Your task to perform on an android device: What time is it in New York? Image 0: 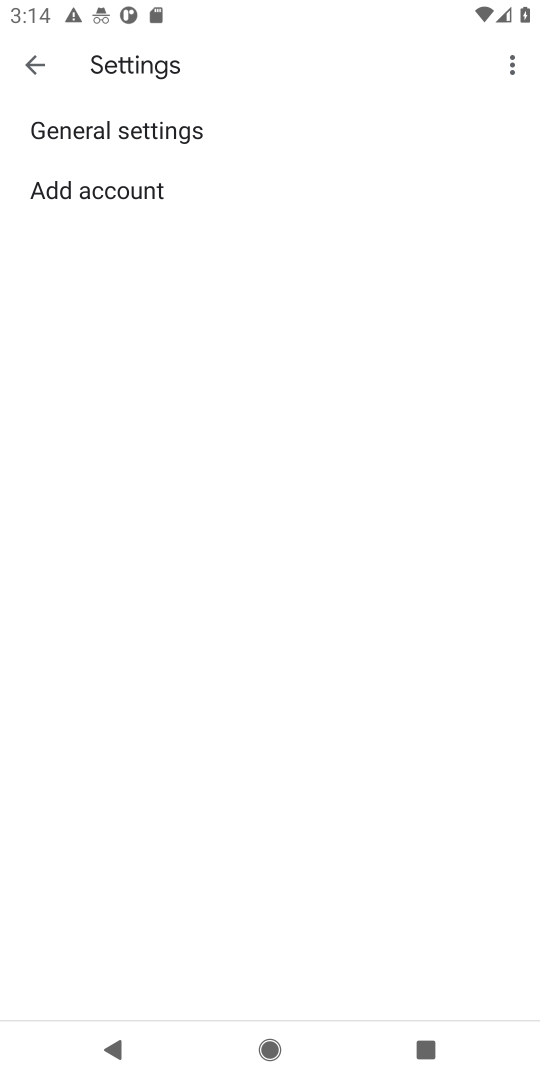
Step 0: click (19, 62)
Your task to perform on an android device: What time is it in New York? Image 1: 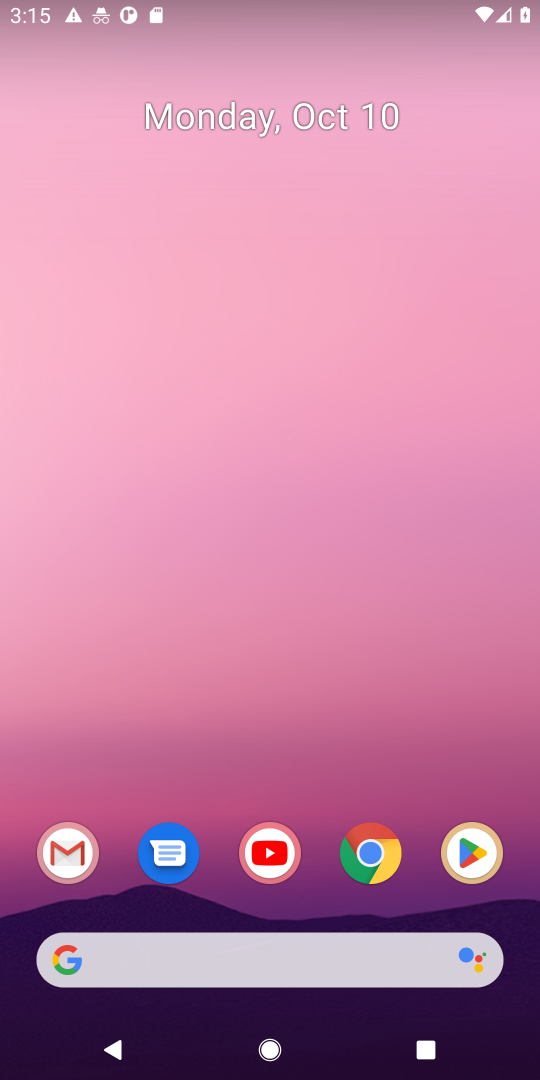
Step 1: click (360, 962)
Your task to perform on an android device: What time is it in New York? Image 2: 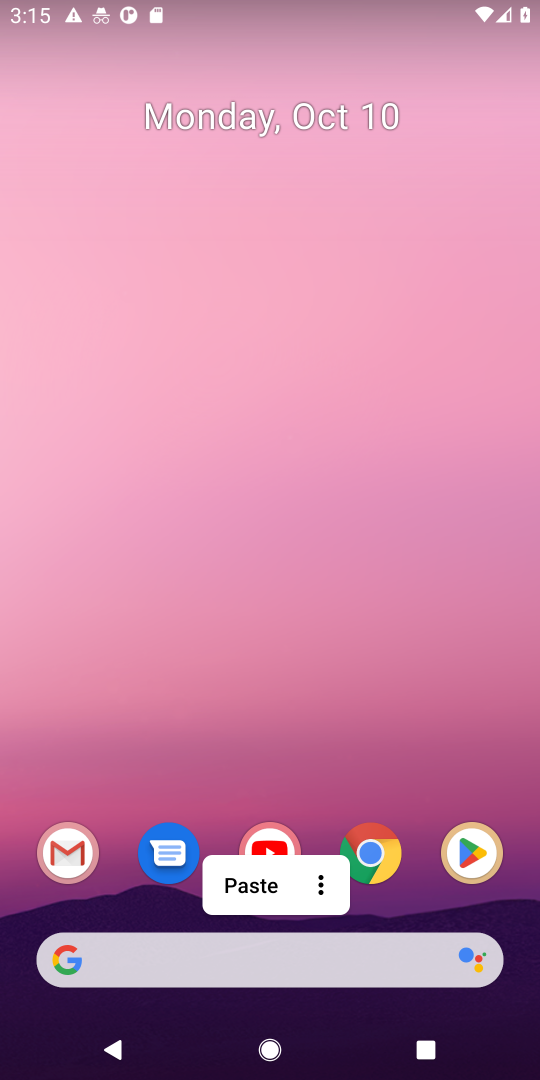
Step 2: click (212, 963)
Your task to perform on an android device: What time is it in New York? Image 3: 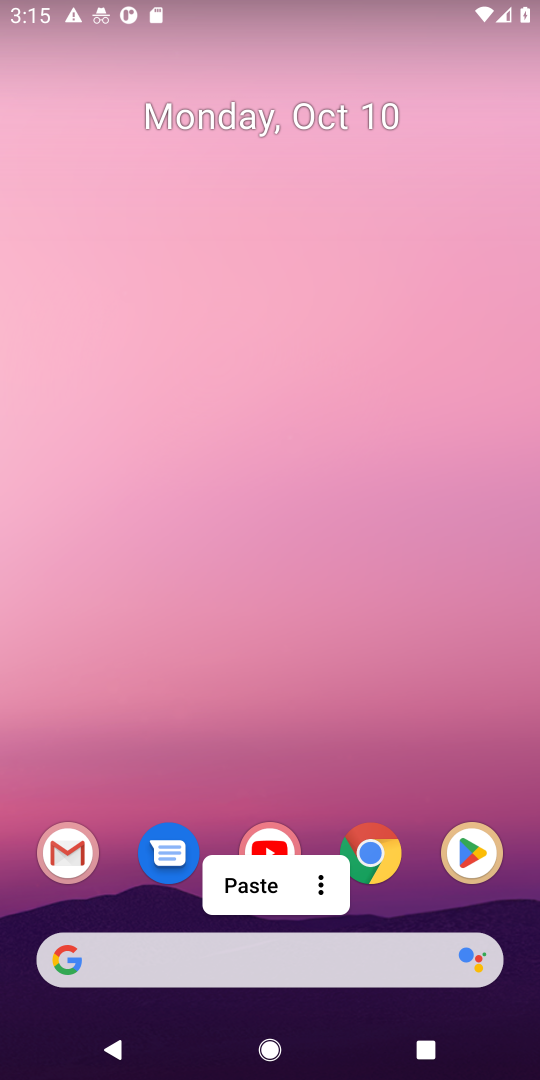
Step 3: click (211, 948)
Your task to perform on an android device: What time is it in New York? Image 4: 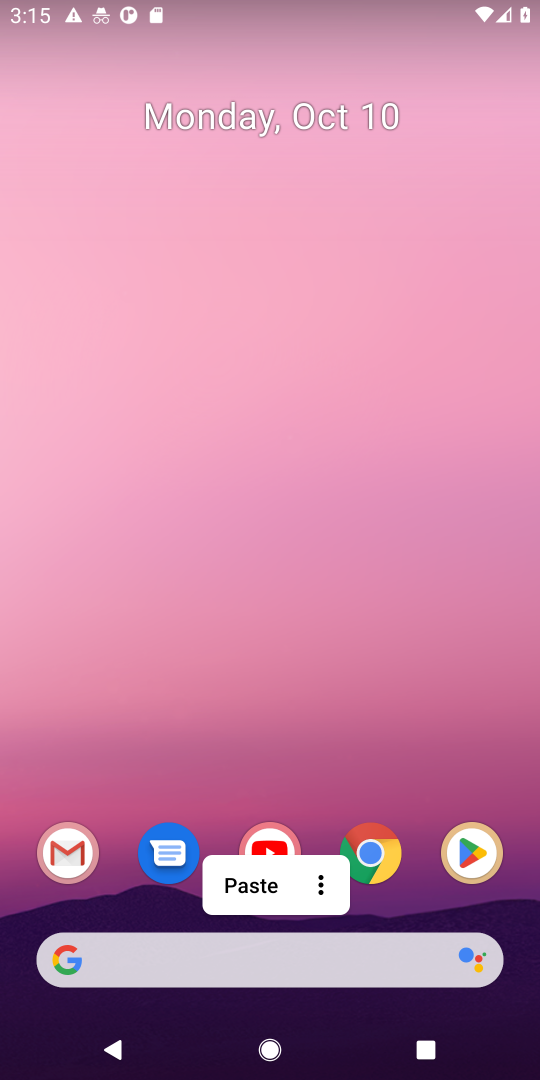
Step 4: click (387, 803)
Your task to perform on an android device: What time is it in New York? Image 5: 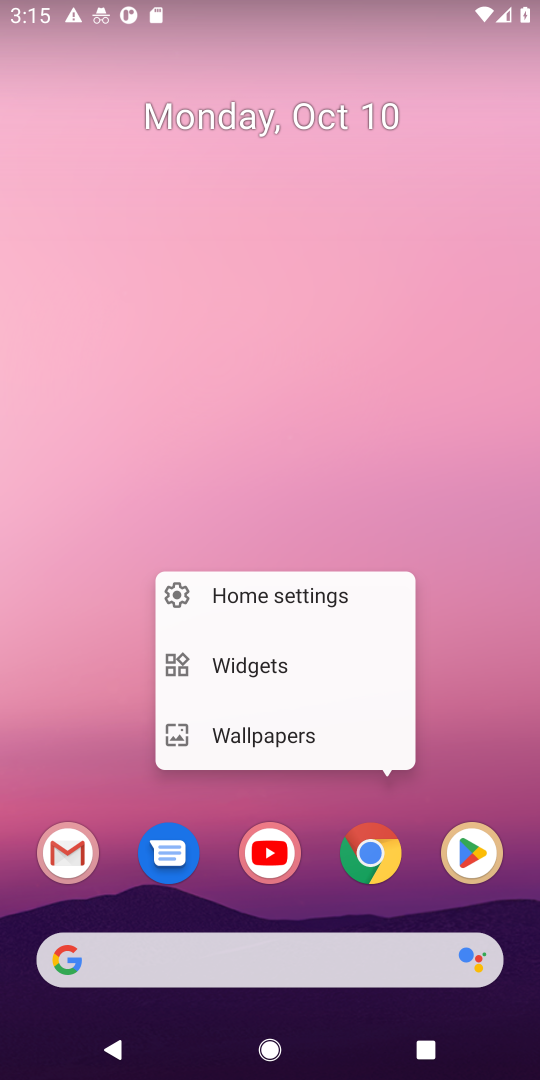
Step 5: click (377, 840)
Your task to perform on an android device: What time is it in New York? Image 6: 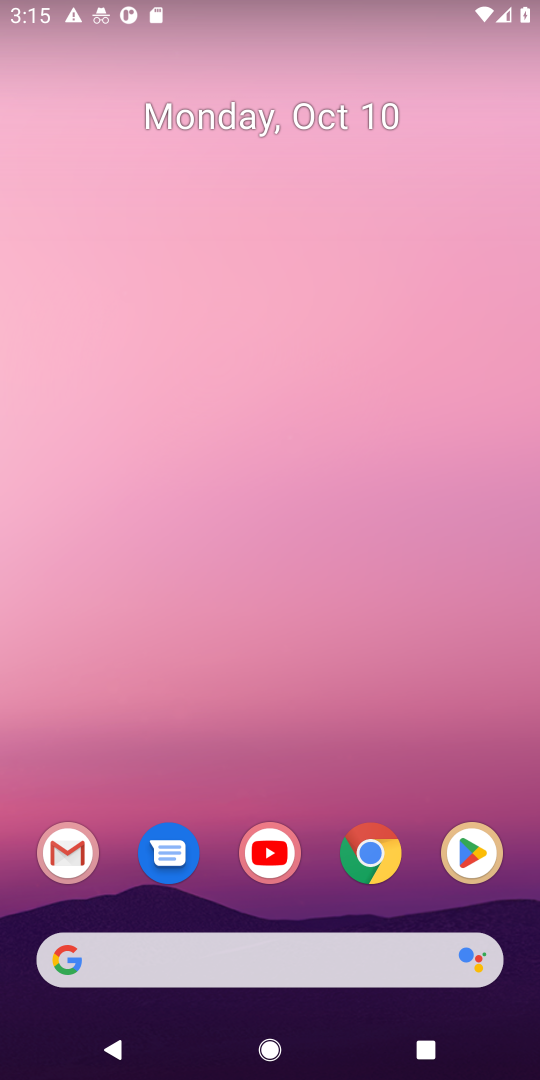
Step 6: click (376, 880)
Your task to perform on an android device: What time is it in New York? Image 7: 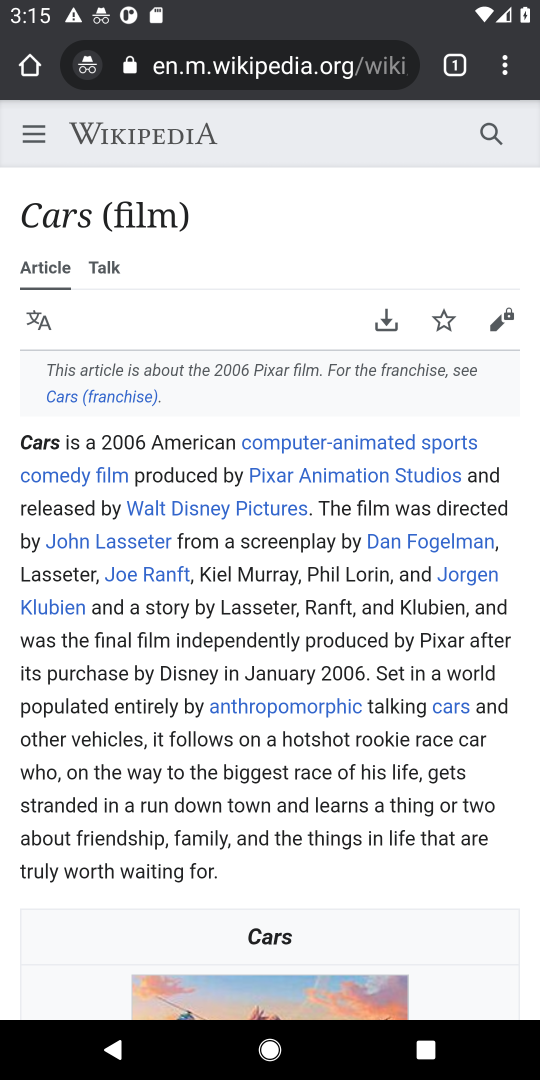
Step 7: click (219, 77)
Your task to perform on an android device: What time is it in New York? Image 8: 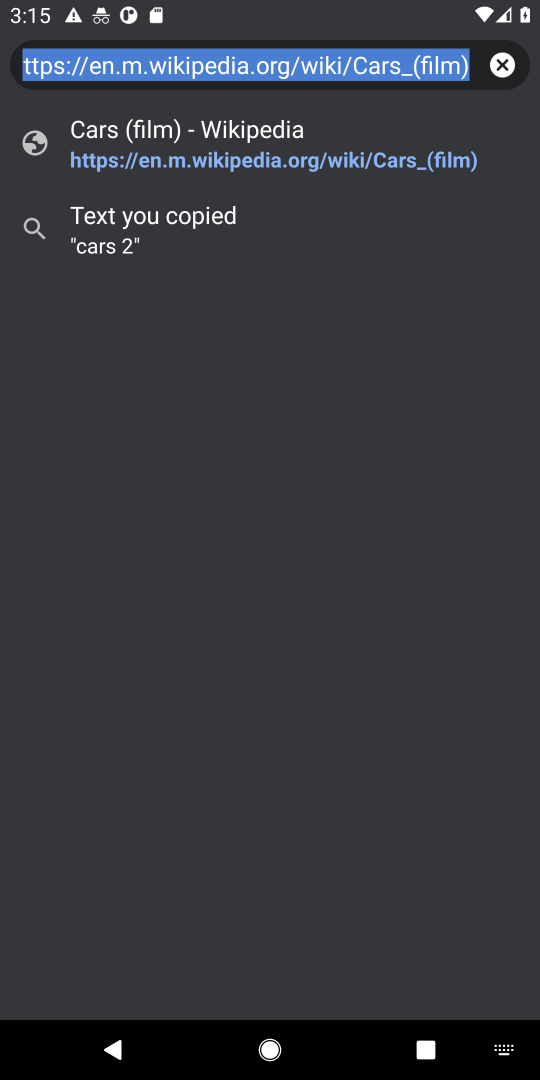
Step 8: type "What time is it in New York?"
Your task to perform on an android device: What time is it in New York? Image 9: 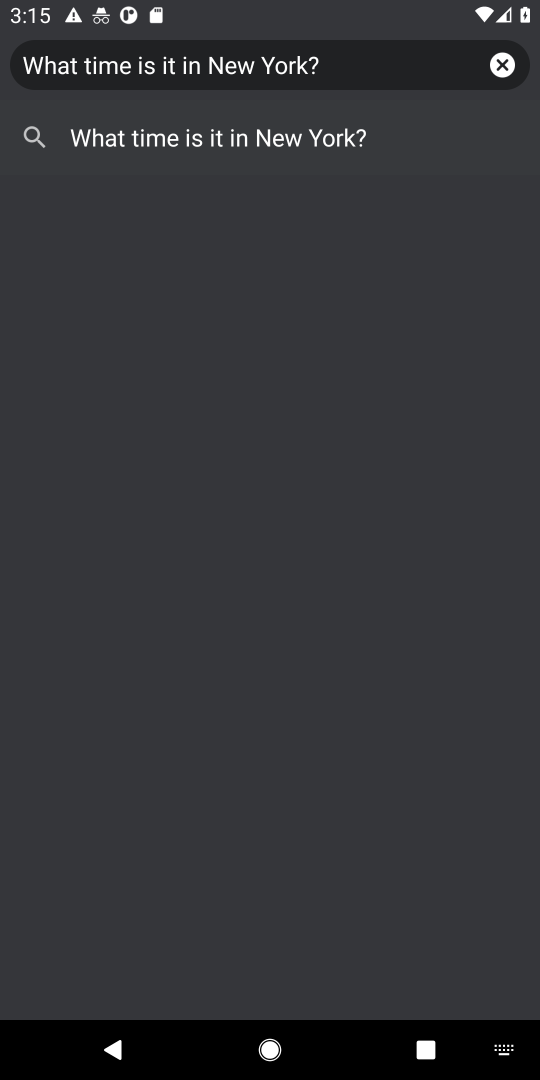
Step 9: type ""
Your task to perform on an android device: What time is it in New York? Image 10: 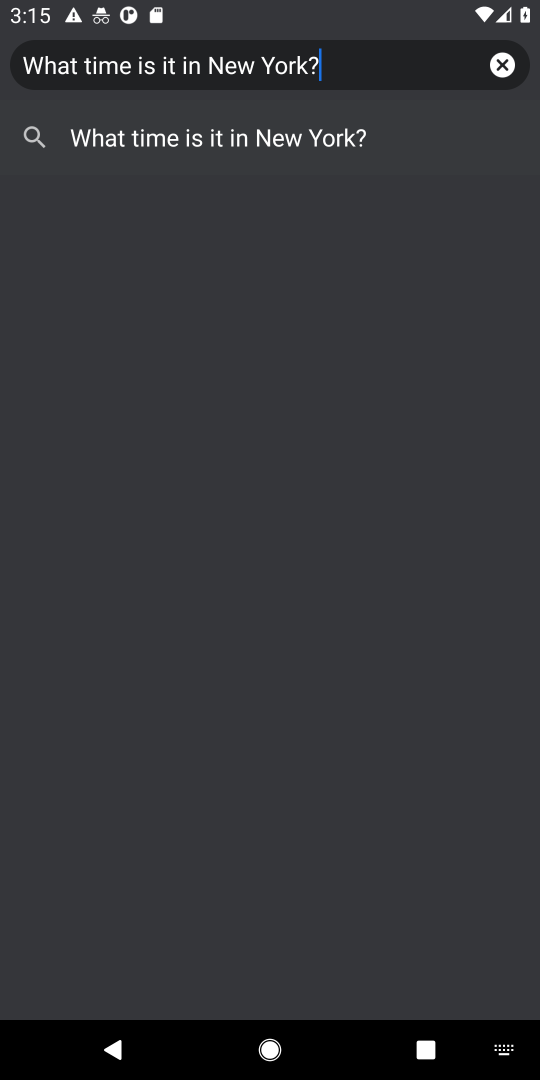
Step 10: click (350, 145)
Your task to perform on an android device: What time is it in New York? Image 11: 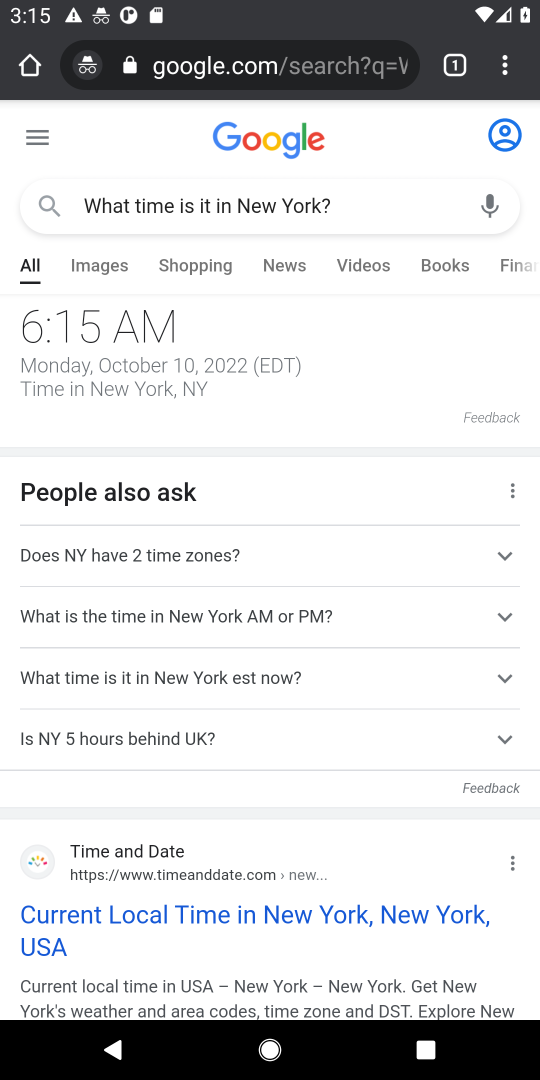
Step 11: drag from (374, 672) to (396, 222)
Your task to perform on an android device: What time is it in New York? Image 12: 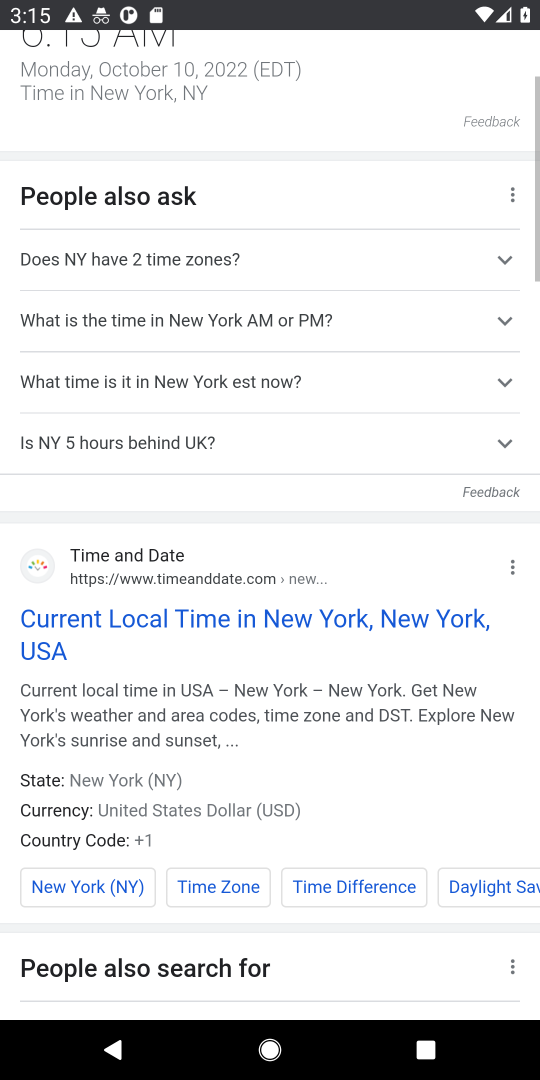
Step 12: click (349, 293)
Your task to perform on an android device: What time is it in New York? Image 13: 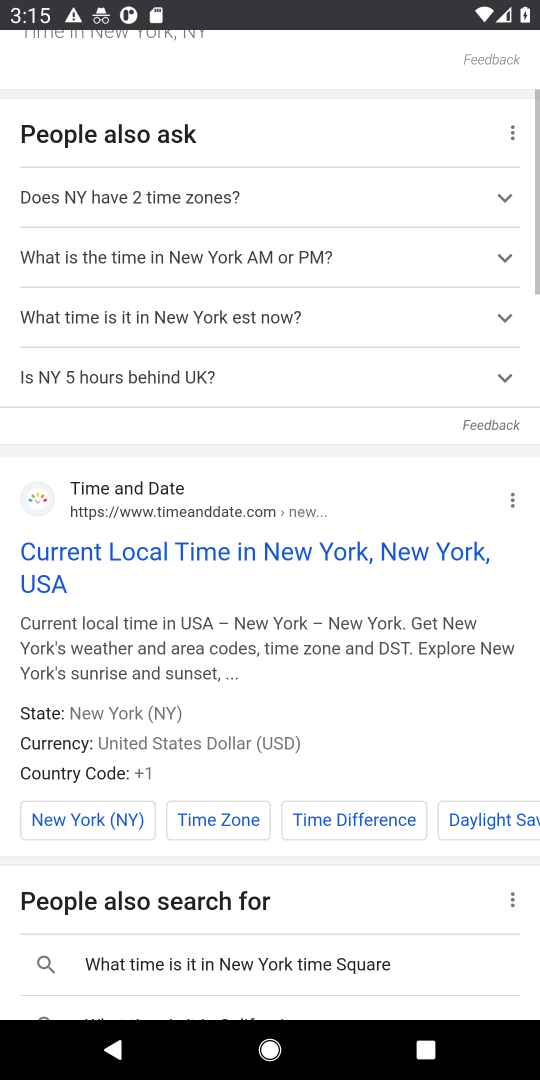
Step 13: drag from (336, 625) to (361, 347)
Your task to perform on an android device: What time is it in New York? Image 14: 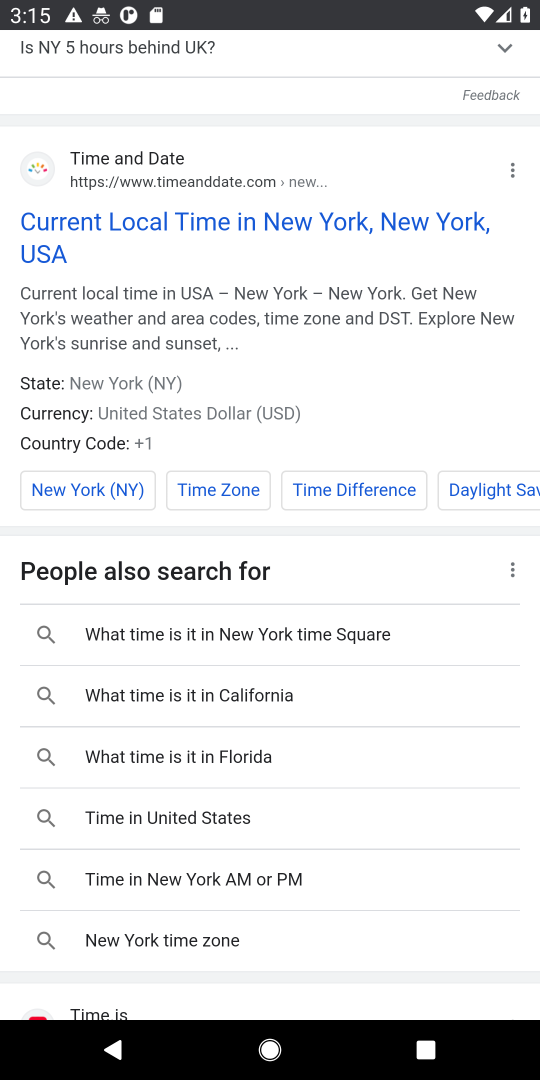
Step 14: drag from (354, 368) to (370, 226)
Your task to perform on an android device: What time is it in New York? Image 15: 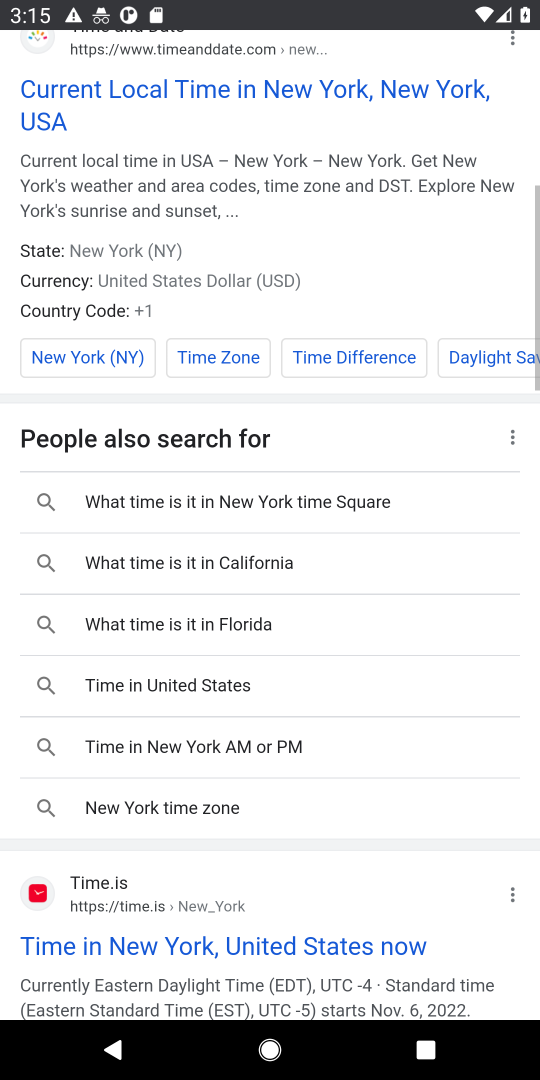
Step 15: drag from (340, 614) to (356, 234)
Your task to perform on an android device: What time is it in New York? Image 16: 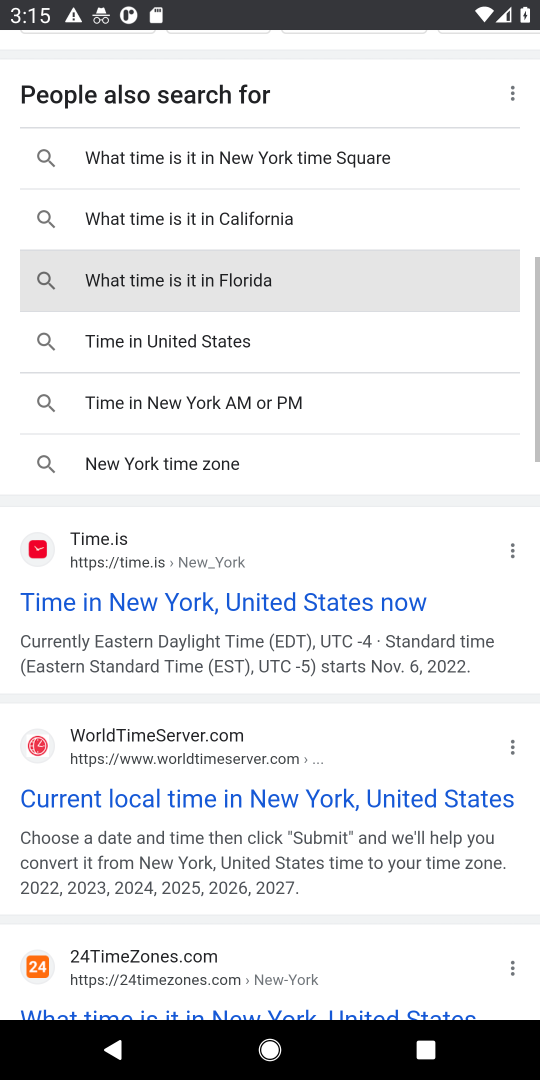
Step 16: drag from (309, 566) to (294, 289)
Your task to perform on an android device: What time is it in New York? Image 17: 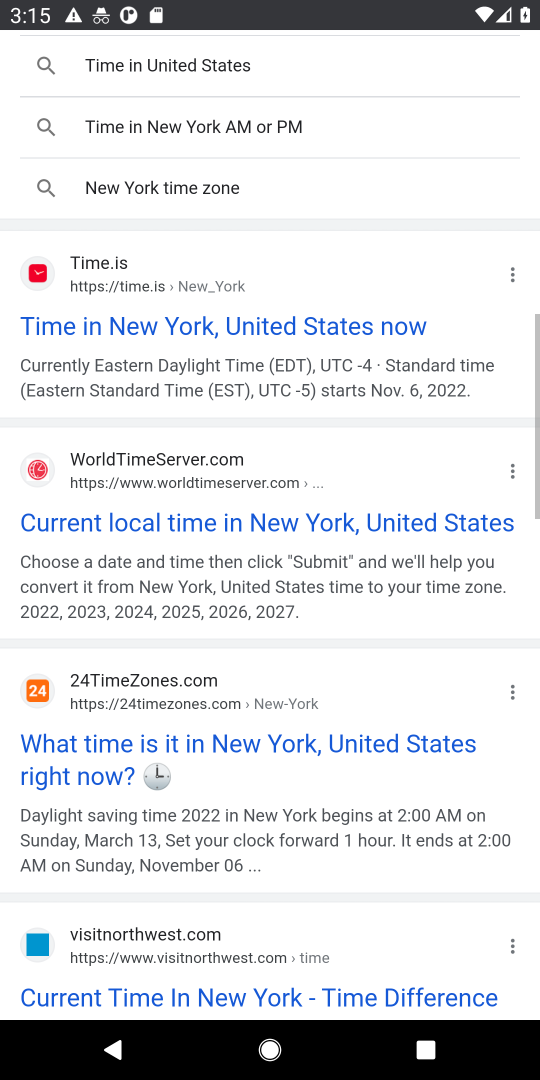
Step 17: drag from (281, 499) to (336, 226)
Your task to perform on an android device: What time is it in New York? Image 18: 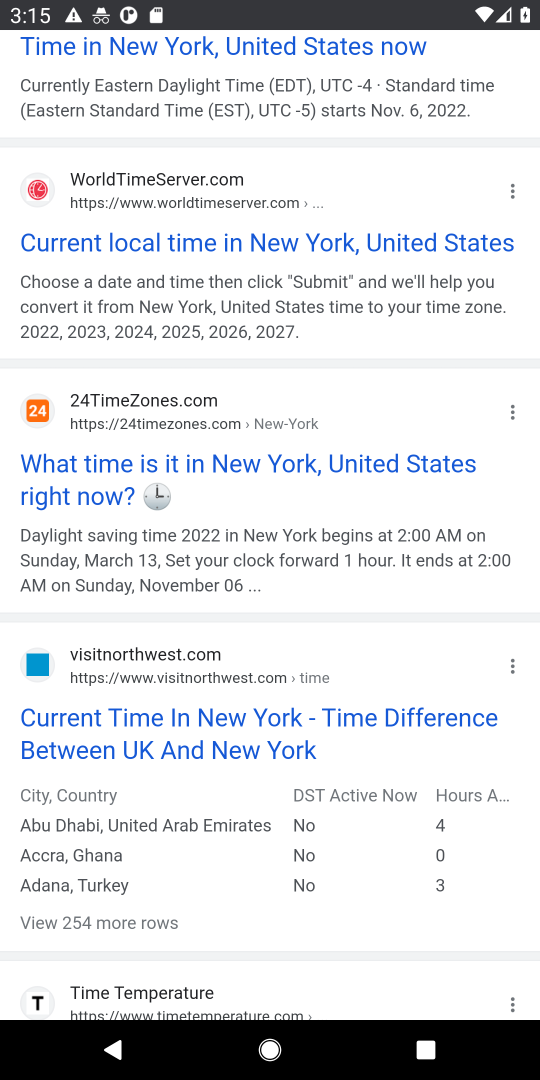
Step 18: click (154, 57)
Your task to perform on an android device: What time is it in New York? Image 19: 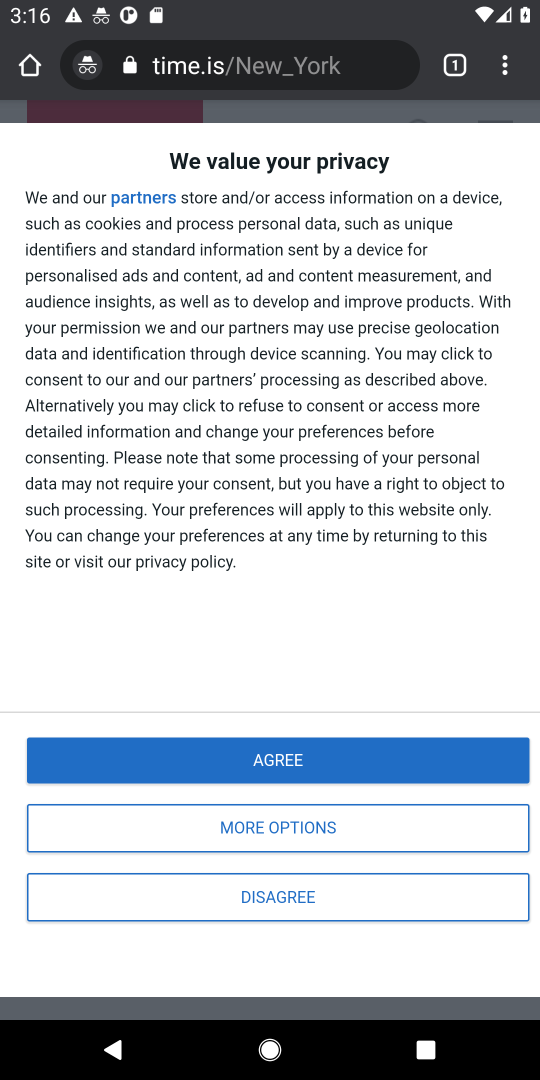
Step 19: click (238, 884)
Your task to perform on an android device: What time is it in New York? Image 20: 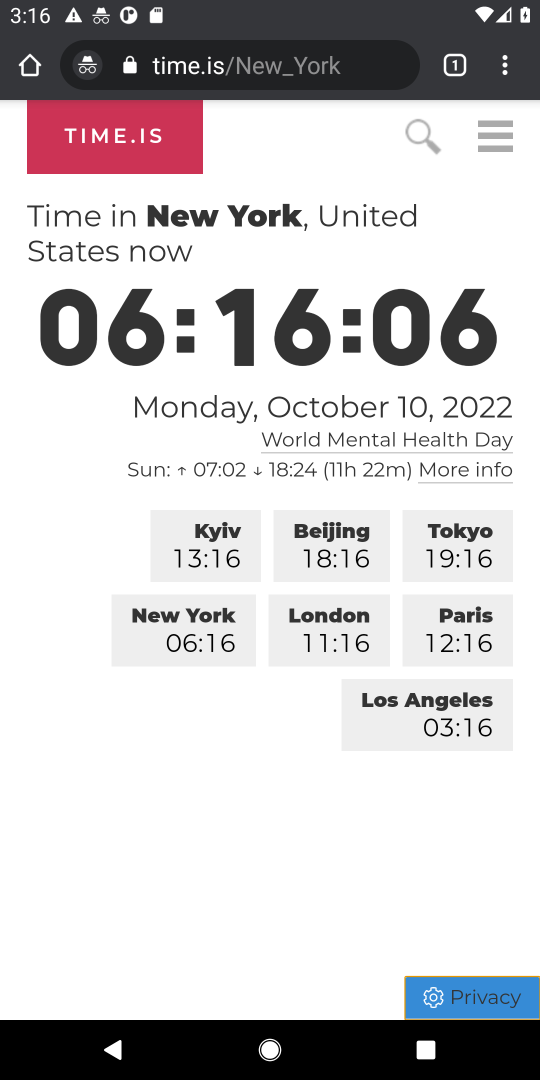
Step 20: drag from (256, 897) to (260, 305)
Your task to perform on an android device: What time is it in New York? Image 21: 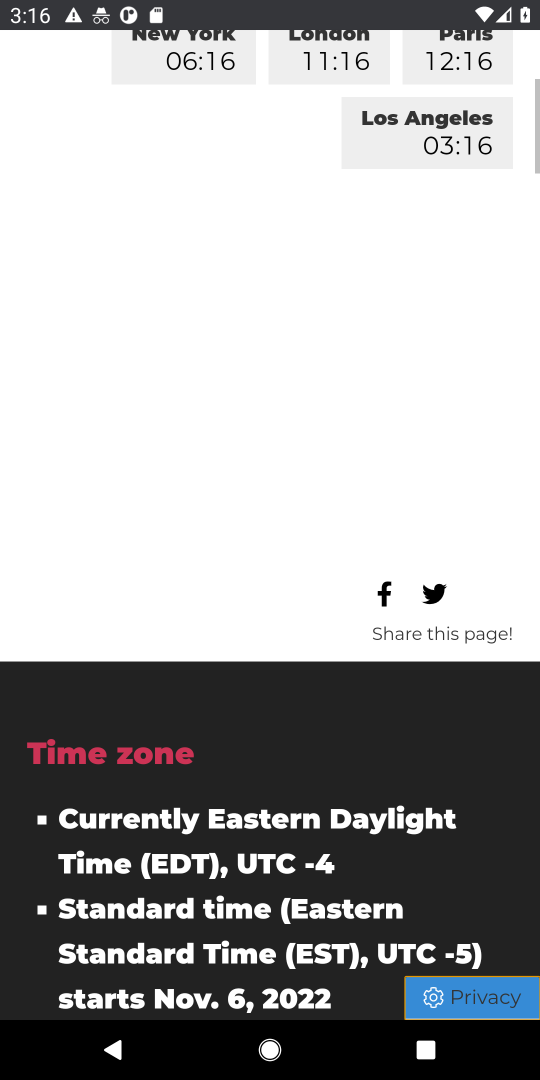
Step 21: drag from (256, 932) to (280, 328)
Your task to perform on an android device: What time is it in New York? Image 22: 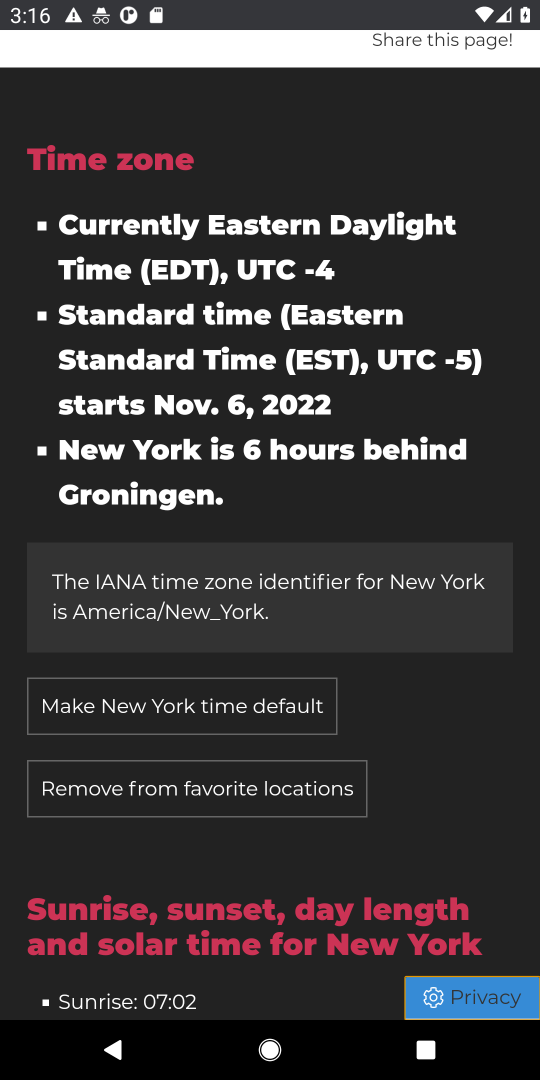
Step 22: drag from (228, 762) to (255, 657)
Your task to perform on an android device: What time is it in New York? Image 23: 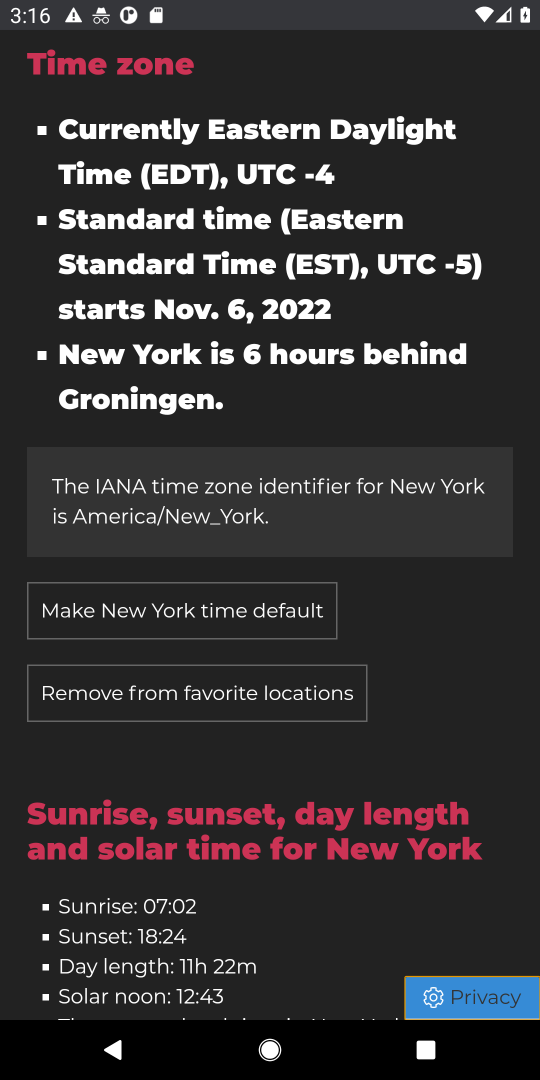
Step 23: drag from (244, 702) to (275, 272)
Your task to perform on an android device: What time is it in New York? Image 24: 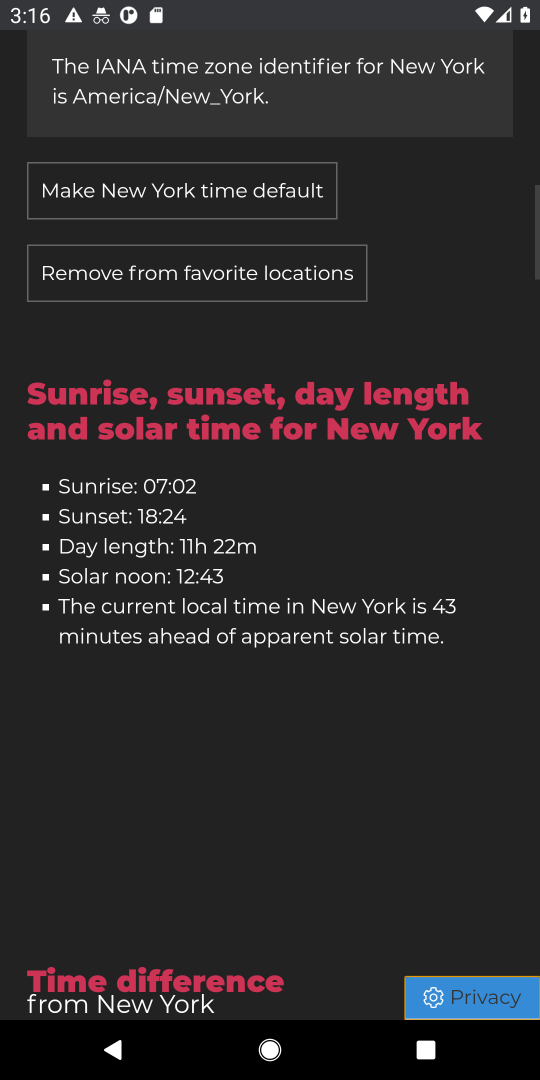
Step 24: drag from (216, 745) to (276, 346)
Your task to perform on an android device: What time is it in New York? Image 25: 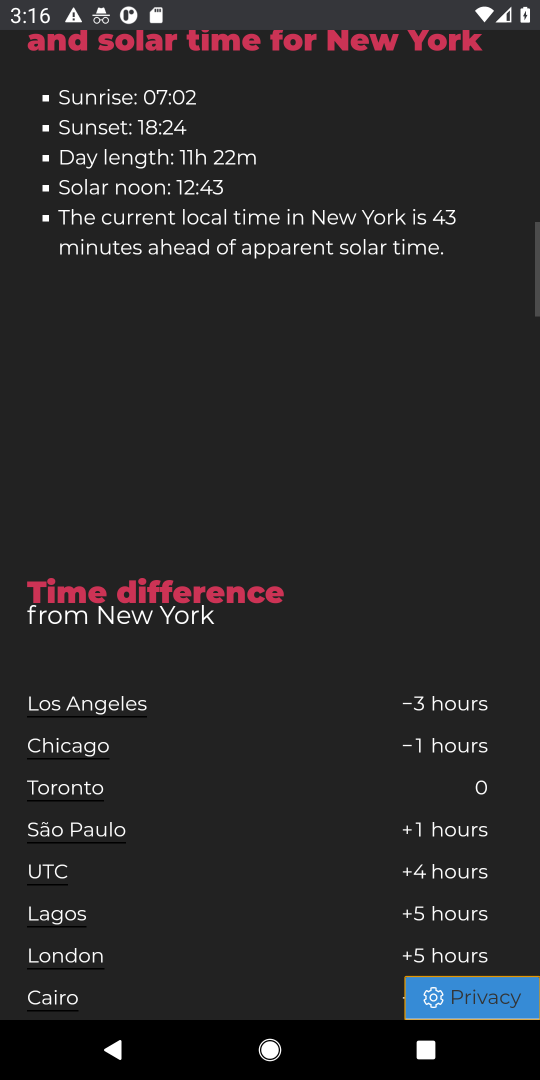
Step 25: drag from (262, 695) to (297, 300)
Your task to perform on an android device: What time is it in New York? Image 26: 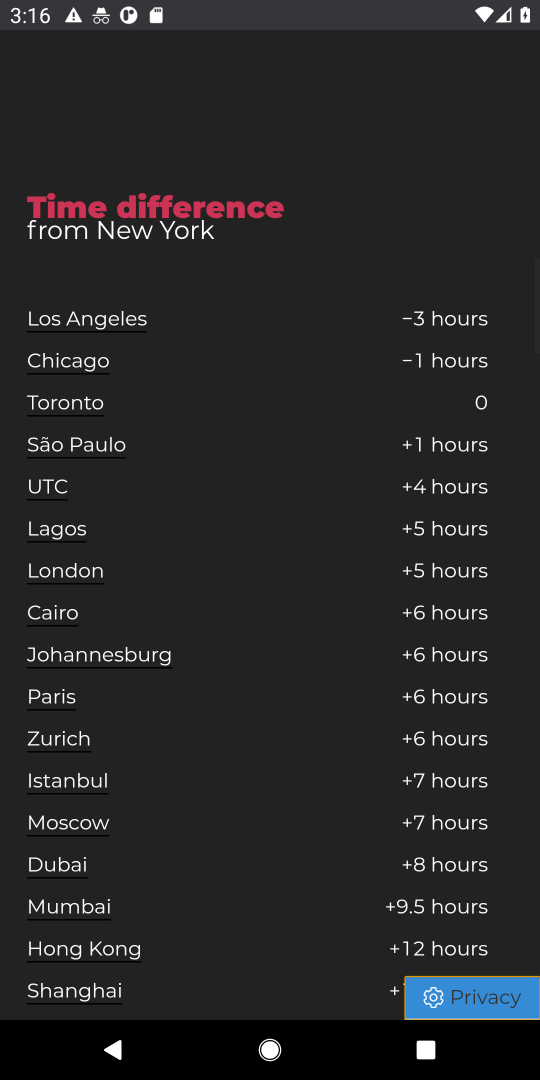
Step 26: press back button
Your task to perform on an android device: What time is it in New York? Image 27: 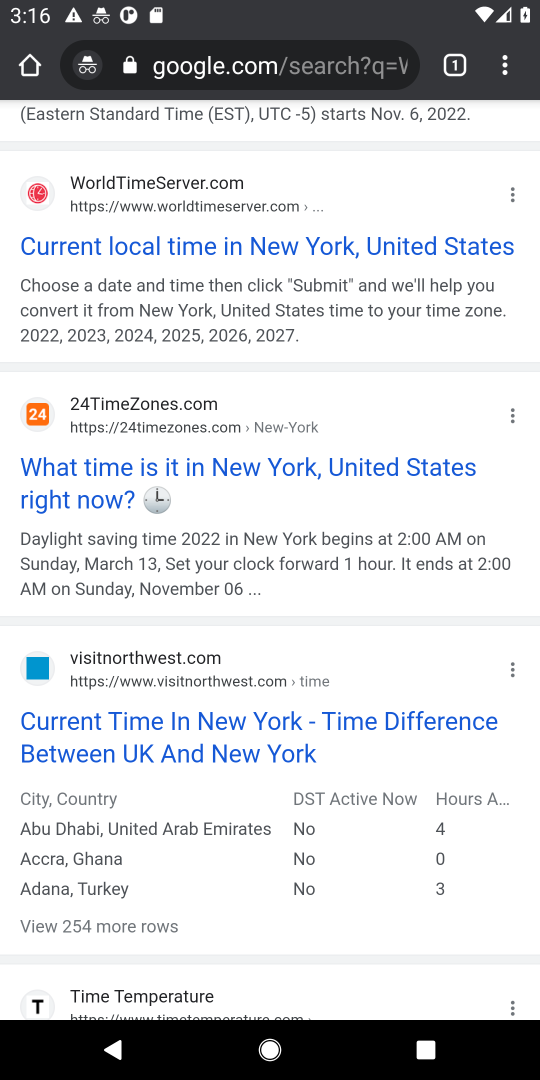
Step 27: click (96, 482)
Your task to perform on an android device: What time is it in New York? Image 28: 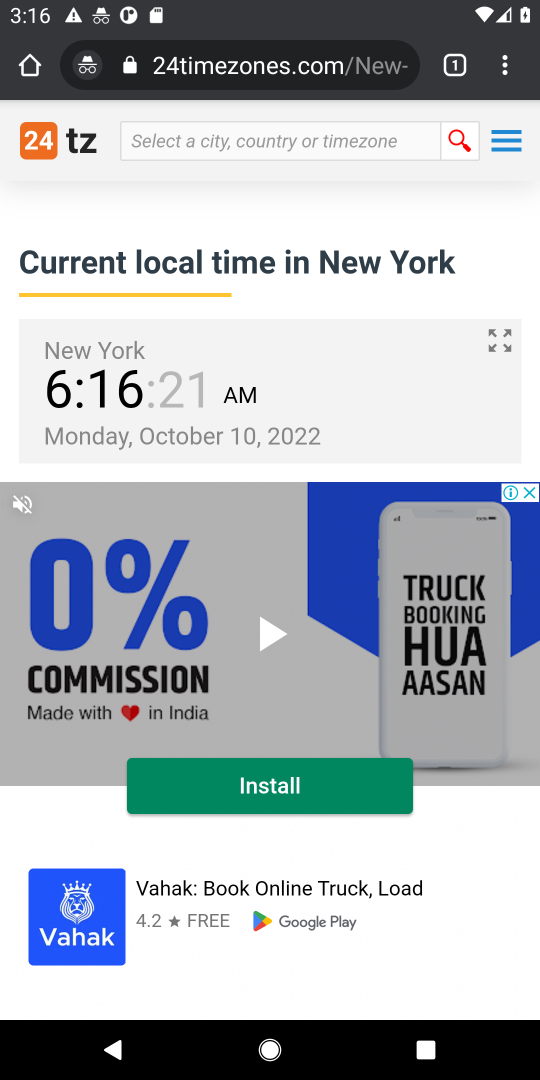
Step 28: drag from (161, 767) to (258, 251)
Your task to perform on an android device: What time is it in New York? Image 29: 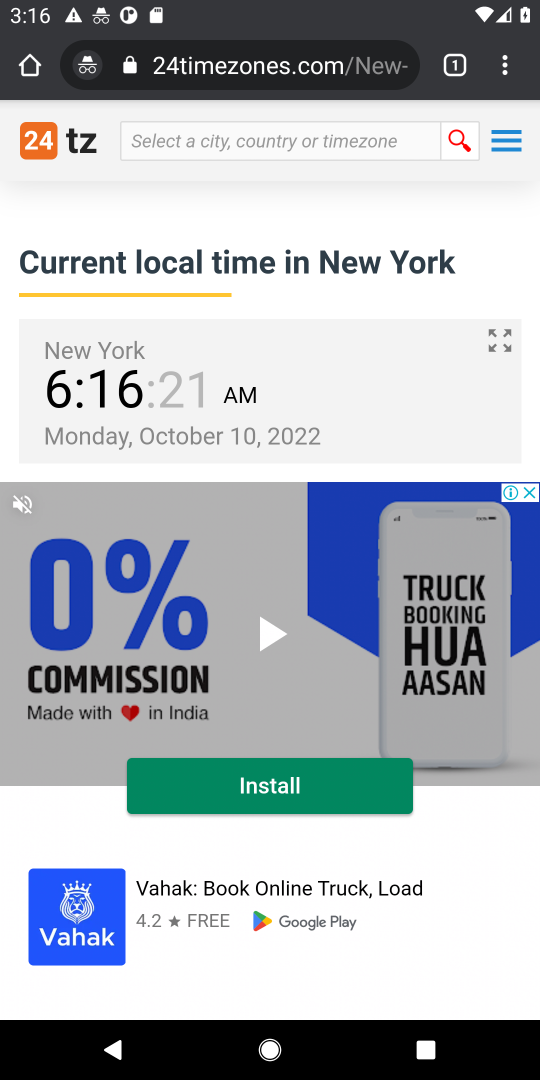
Step 29: drag from (365, 497) to (402, 235)
Your task to perform on an android device: What time is it in New York? Image 30: 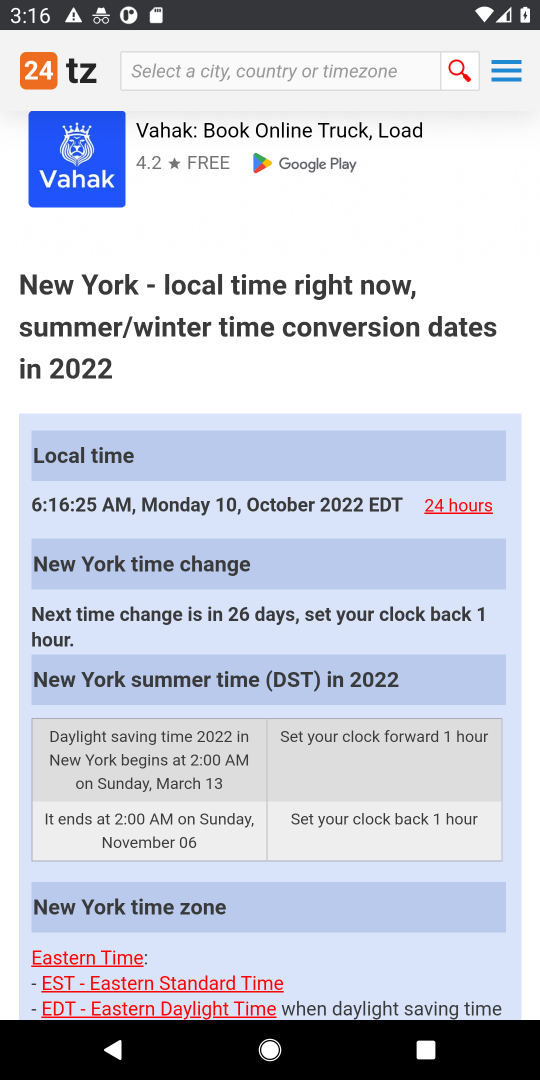
Step 30: press back button
Your task to perform on an android device: What time is it in New York? Image 31: 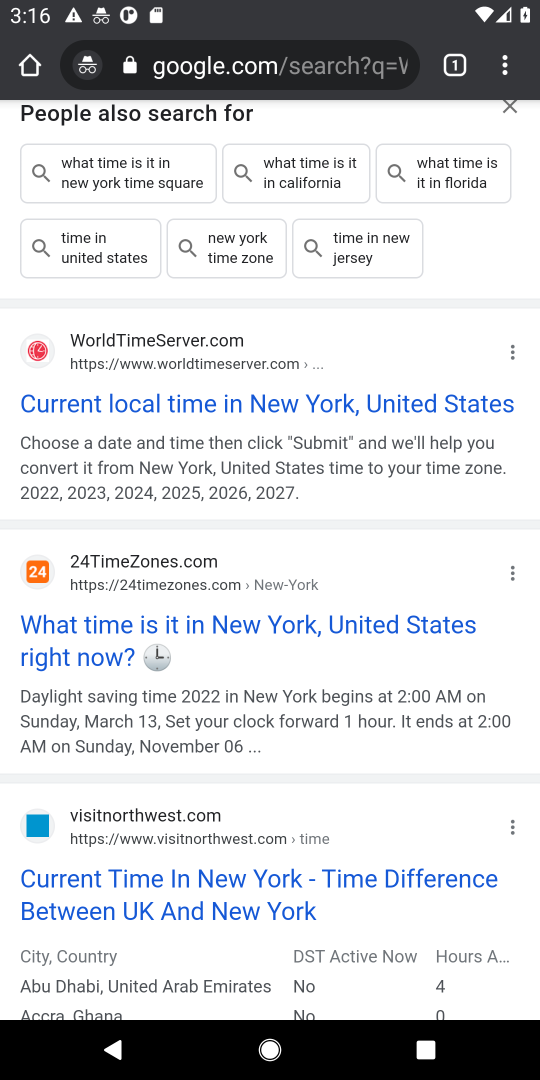
Step 31: click (169, 868)
Your task to perform on an android device: What time is it in New York? Image 32: 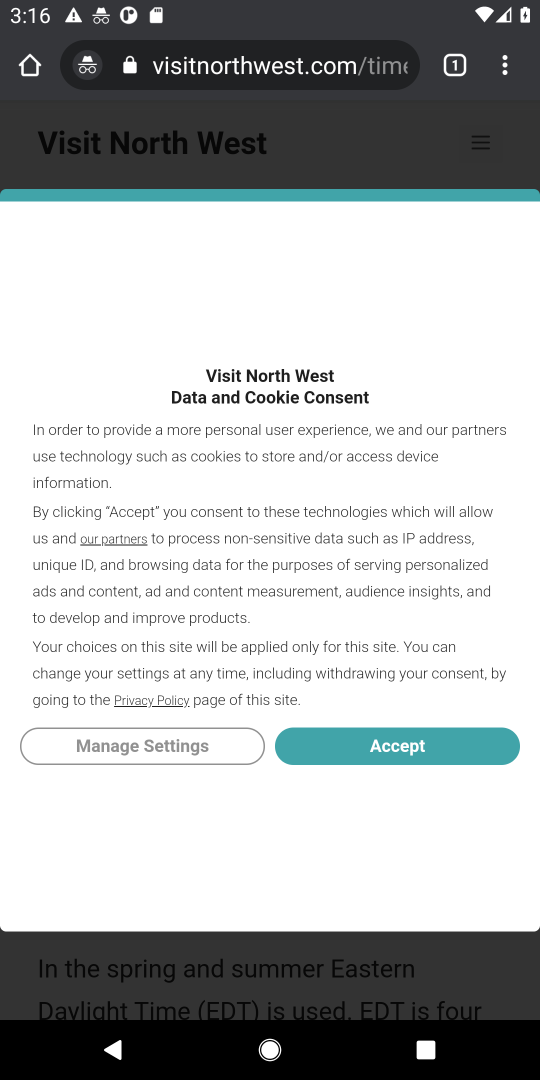
Step 32: click (311, 742)
Your task to perform on an android device: What time is it in New York? Image 33: 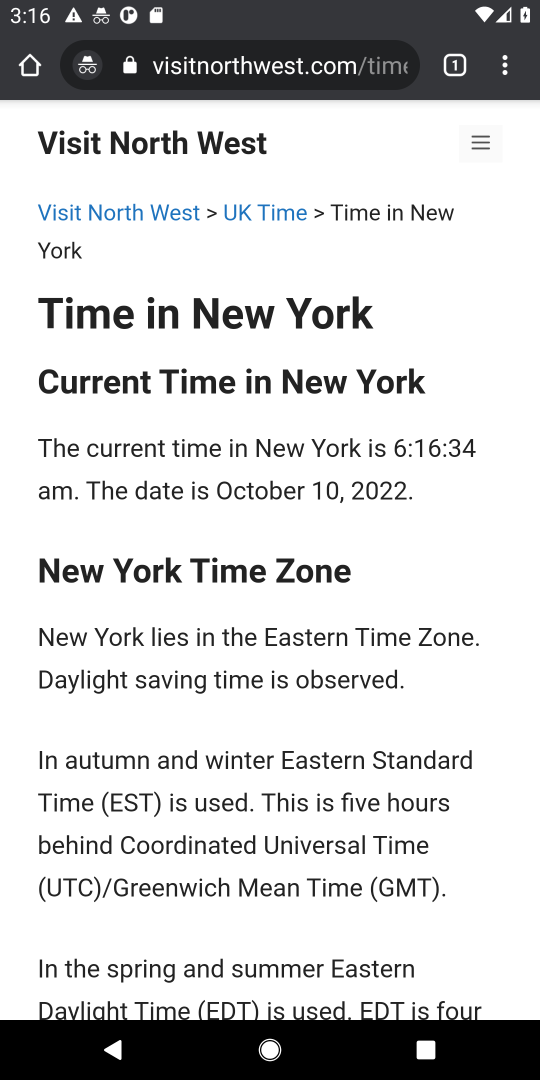
Step 33: drag from (331, 859) to (333, 319)
Your task to perform on an android device: What time is it in New York? Image 34: 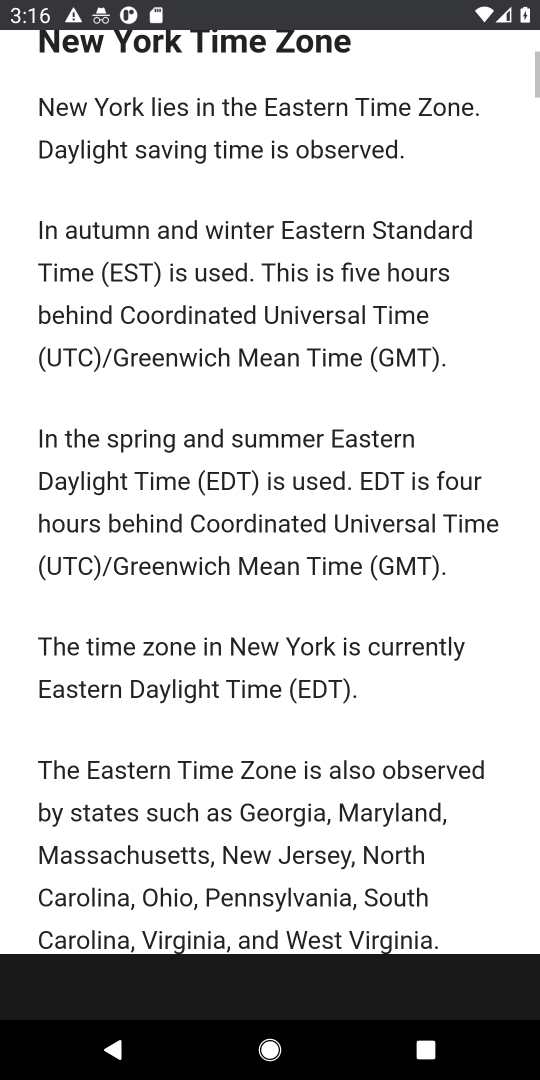
Step 34: drag from (336, 775) to (344, 224)
Your task to perform on an android device: What time is it in New York? Image 35: 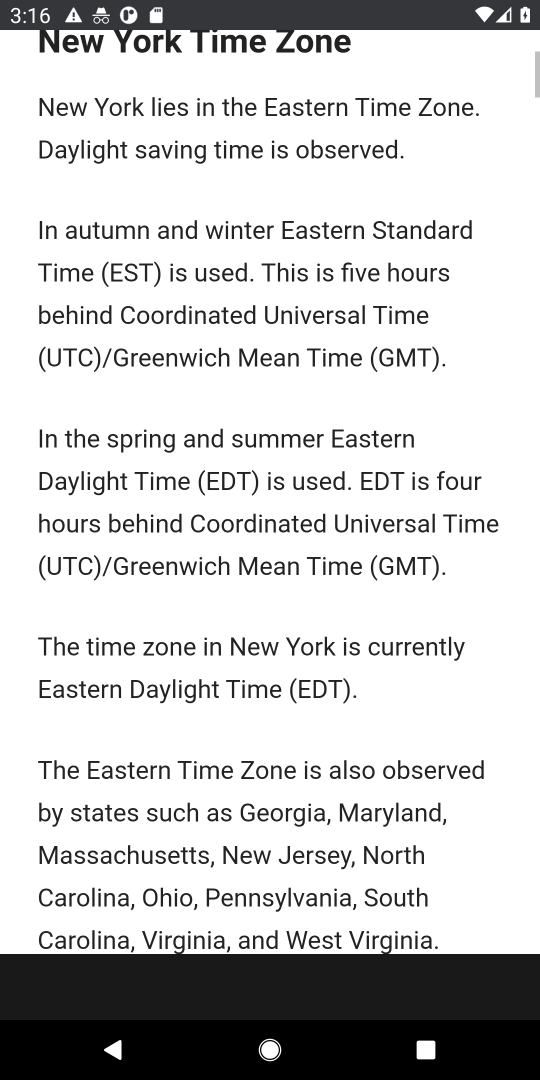
Step 35: drag from (311, 678) to (327, 241)
Your task to perform on an android device: What time is it in New York? Image 36: 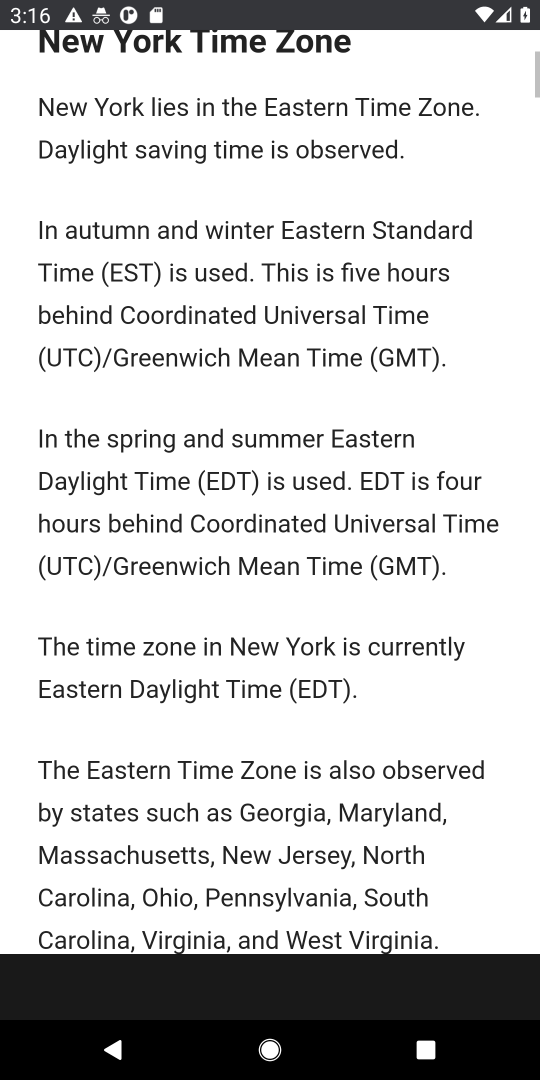
Step 36: drag from (250, 707) to (237, 238)
Your task to perform on an android device: What time is it in New York? Image 37: 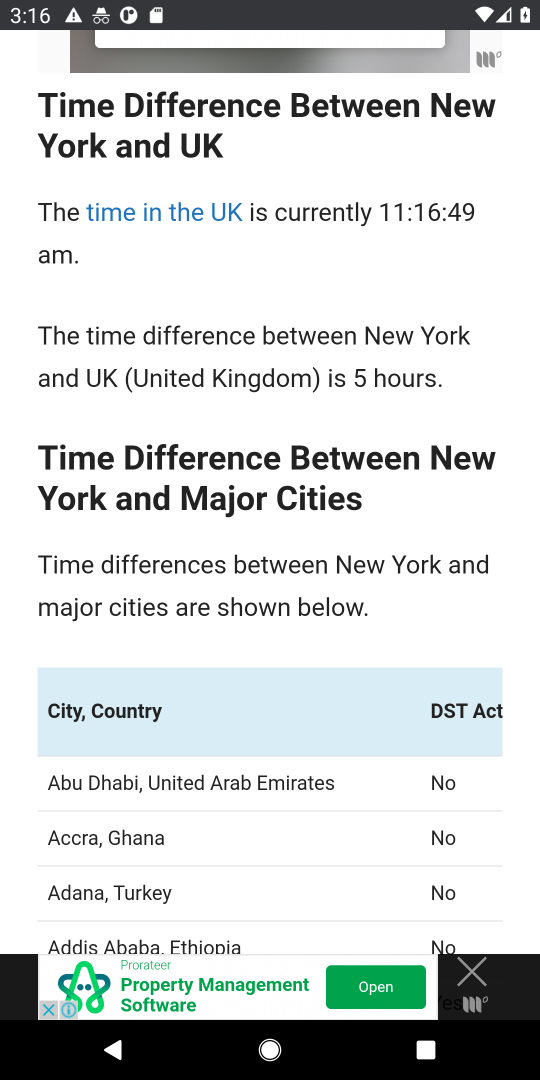
Step 37: drag from (292, 662) to (276, 171)
Your task to perform on an android device: What time is it in New York? Image 38: 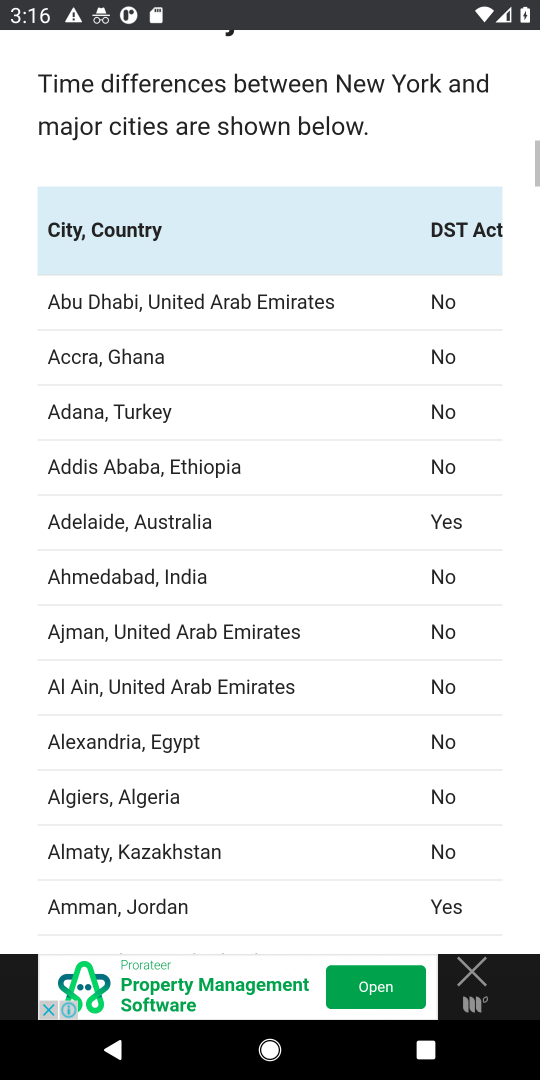
Step 38: drag from (241, 603) to (336, 47)
Your task to perform on an android device: What time is it in New York? Image 39: 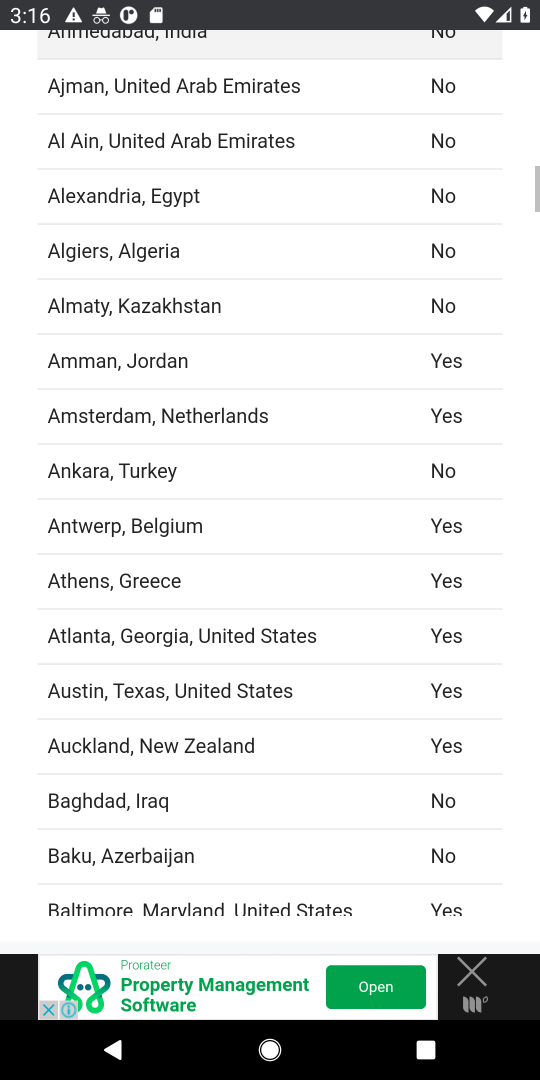
Step 39: drag from (310, 586) to (277, 129)
Your task to perform on an android device: What time is it in New York? Image 40: 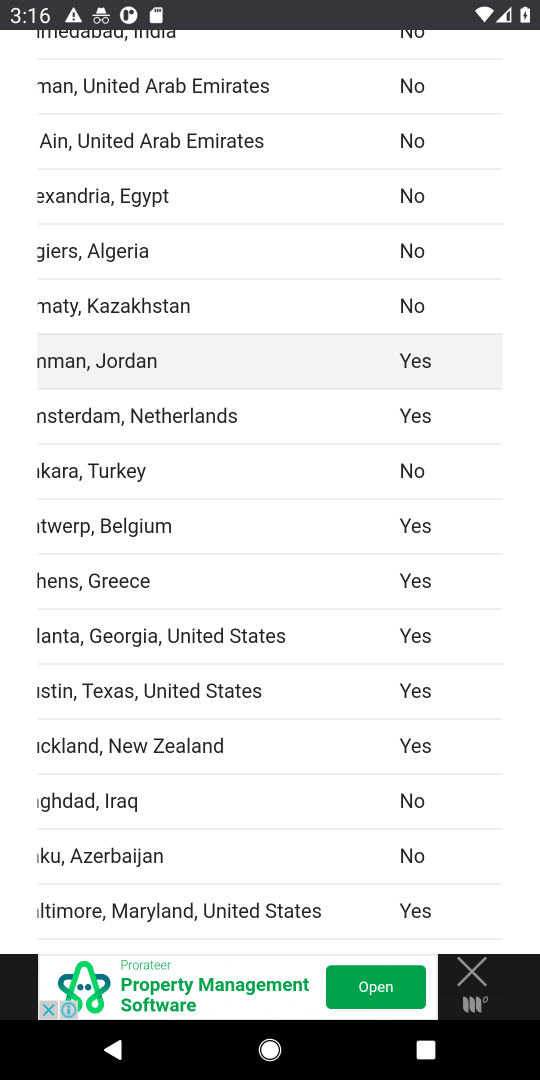
Step 40: drag from (284, 464) to (293, 234)
Your task to perform on an android device: What time is it in New York? Image 41: 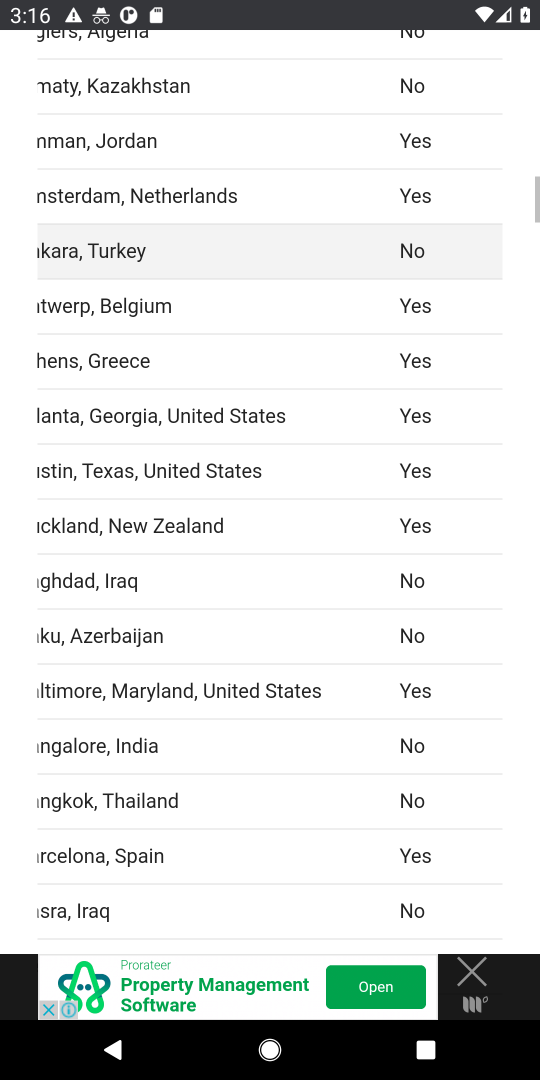
Step 41: drag from (252, 562) to (275, 179)
Your task to perform on an android device: What time is it in New York? Image 42: 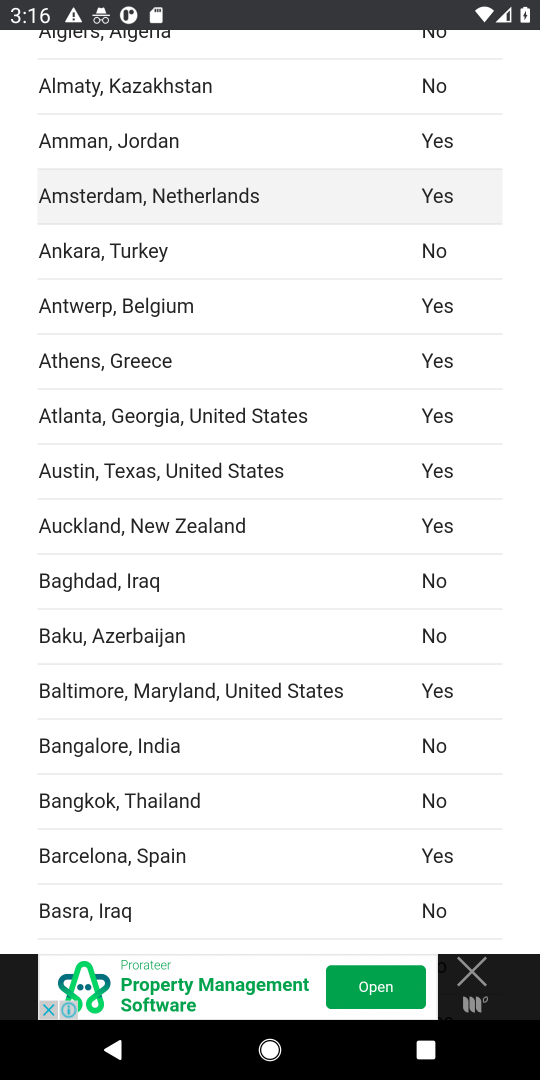
Step 42: press back button
Your task to perform on an android device: What time is it in New York? Image 43: 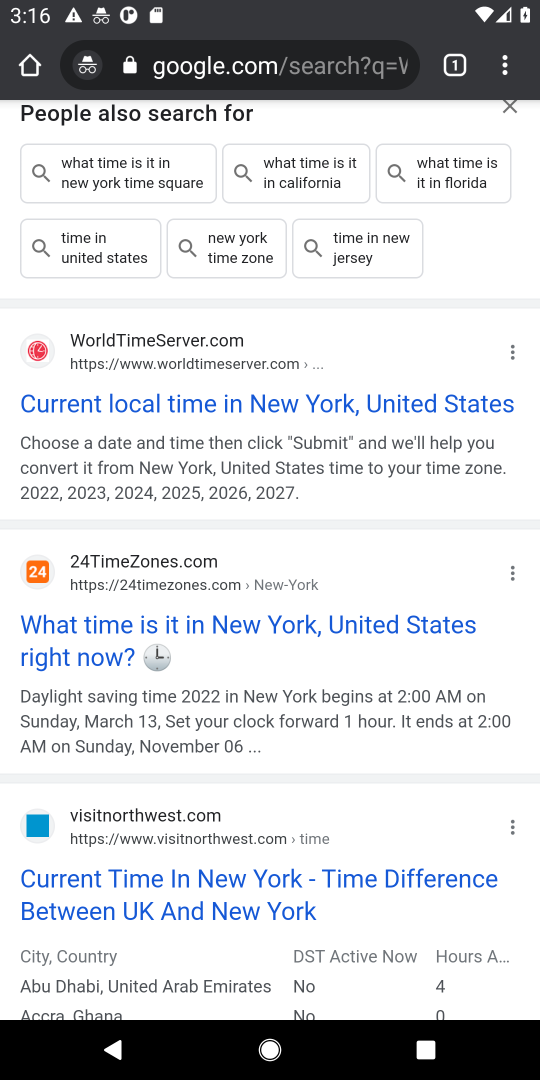
Step 43: click (154, 902)
Your task to perform on an android device: What time is it in New York? Image 44: 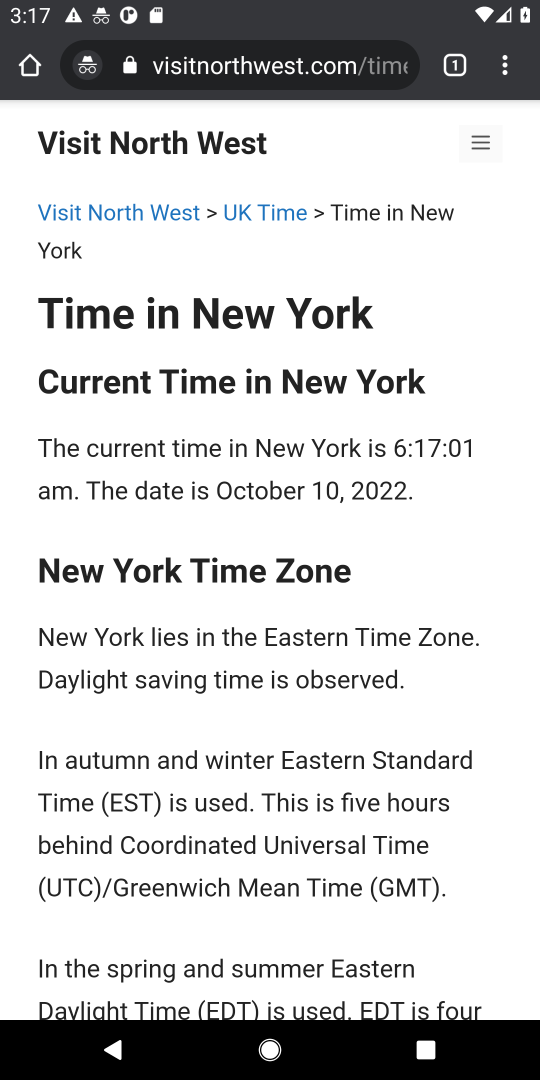
Step 44: drag from (179, 799) to (285, 218)
Your task to perform on an android device: What time is it in New York? Image 45: 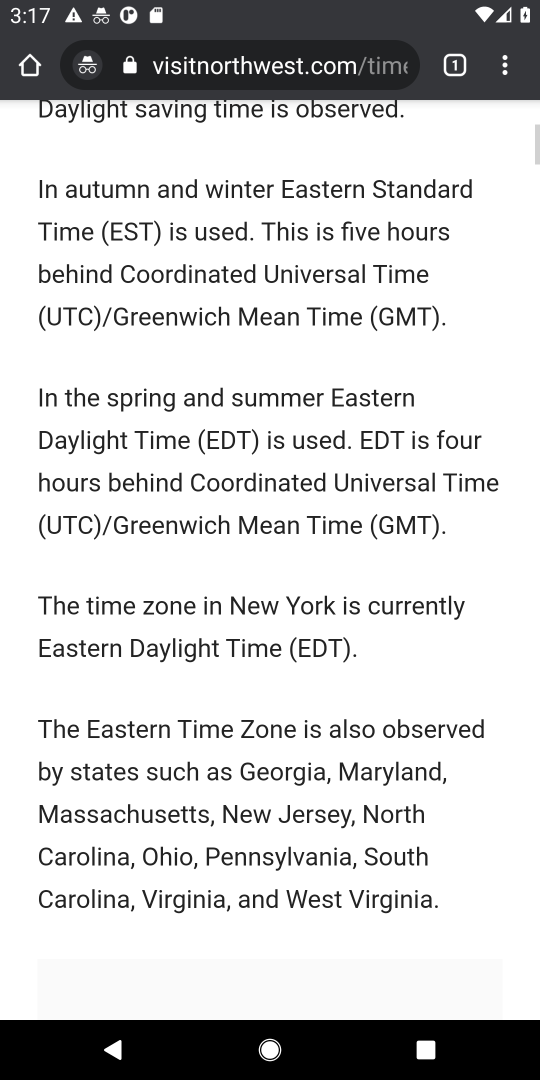
Step 45: drag from (304, 807) to (291, 312)
Your task to perform on an android device: What time is it in New York? Image 46: 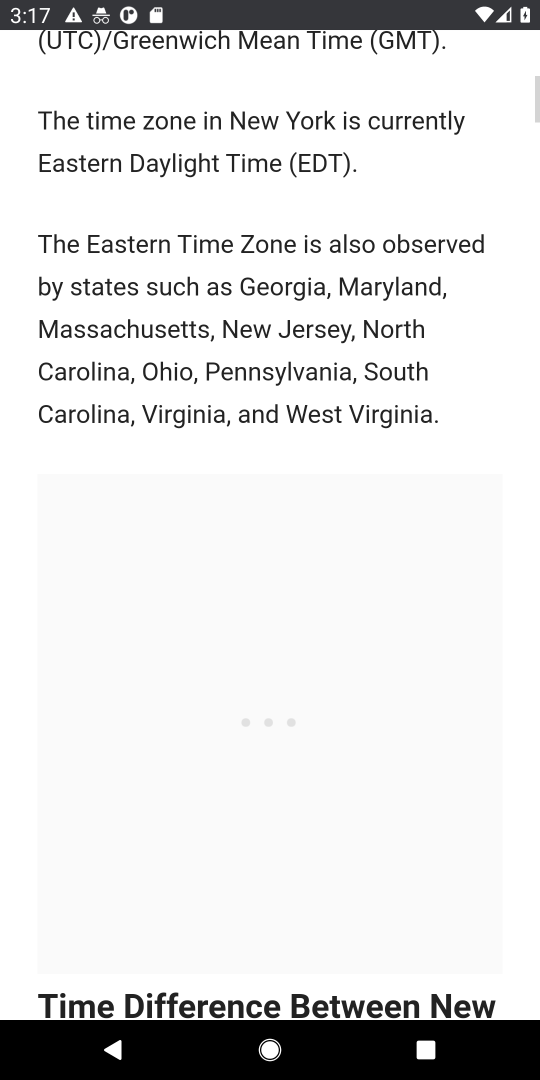
Step 46: press back button
Your task to perform on an android device: What time is it in New York? Image 47: 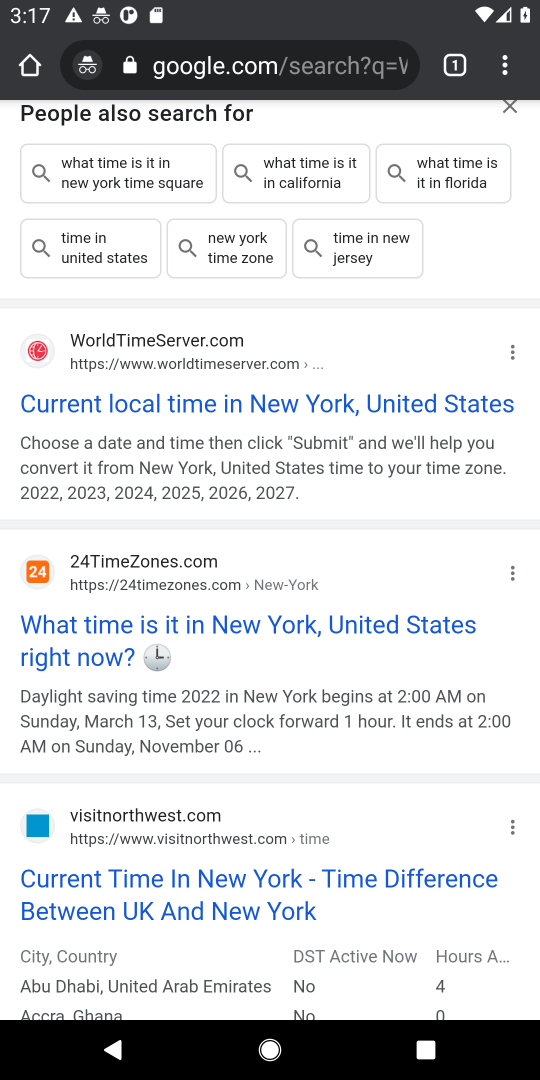
Step 47: drag from (327, 893) to (311, 175)
Your task to perform on an android device: What time is it in New York? Image 48: 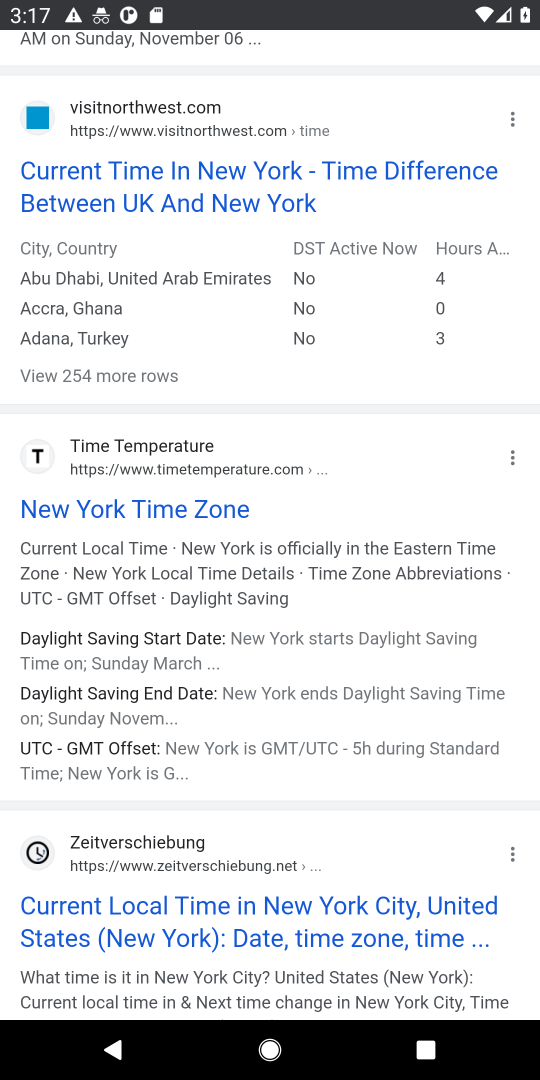
Step 48: click (98, 903)
Your task to perform on an android device: What time is it in New York? Image 49: 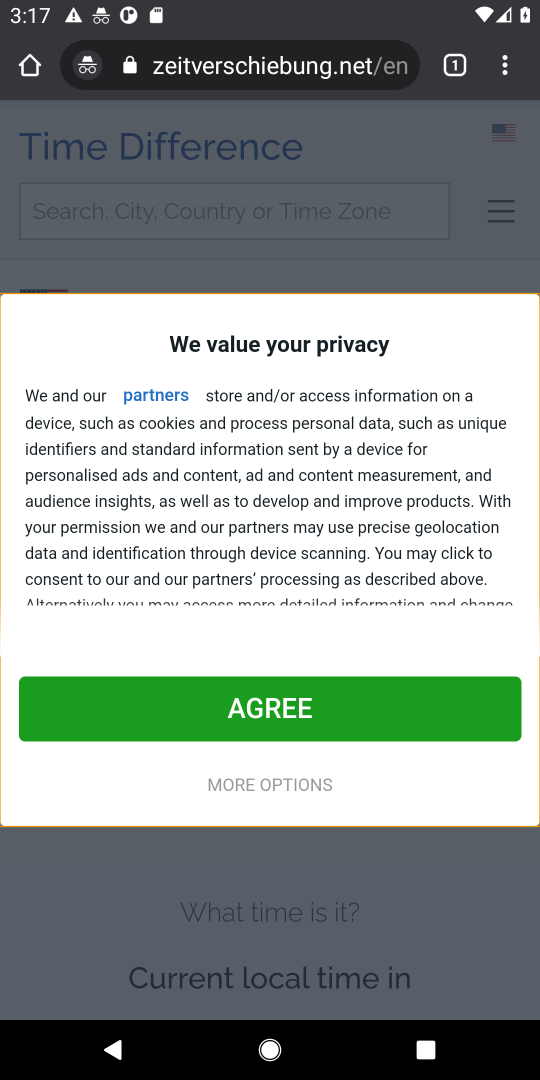
Step 49: click (209, 697)
Your task to perform on an android device: What time is it in New York? Image 50: 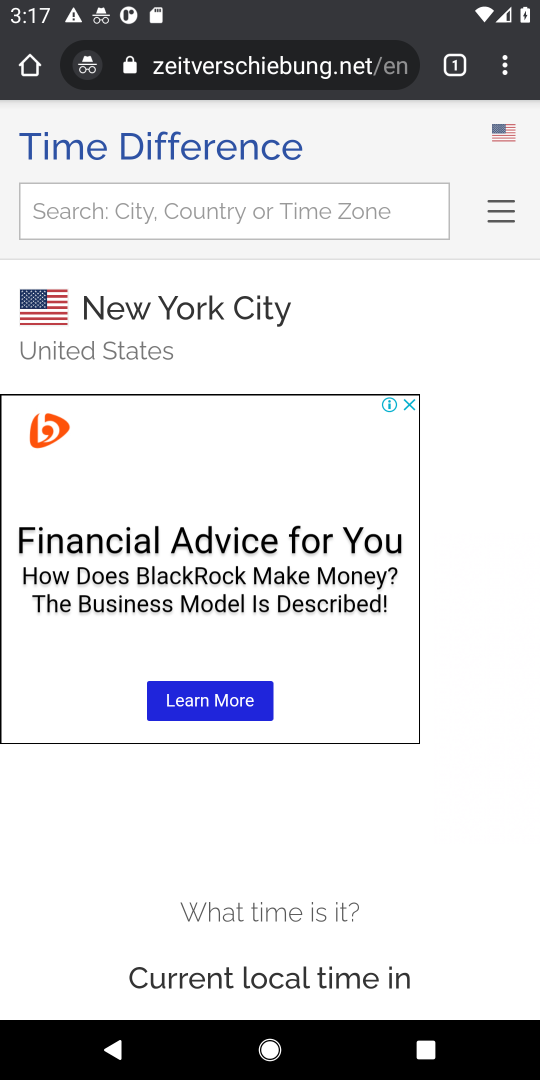
Step 50: drag from (285, 961) to (339, 234)
Your task to perform on an android device: What time is it in New York? Image 51: 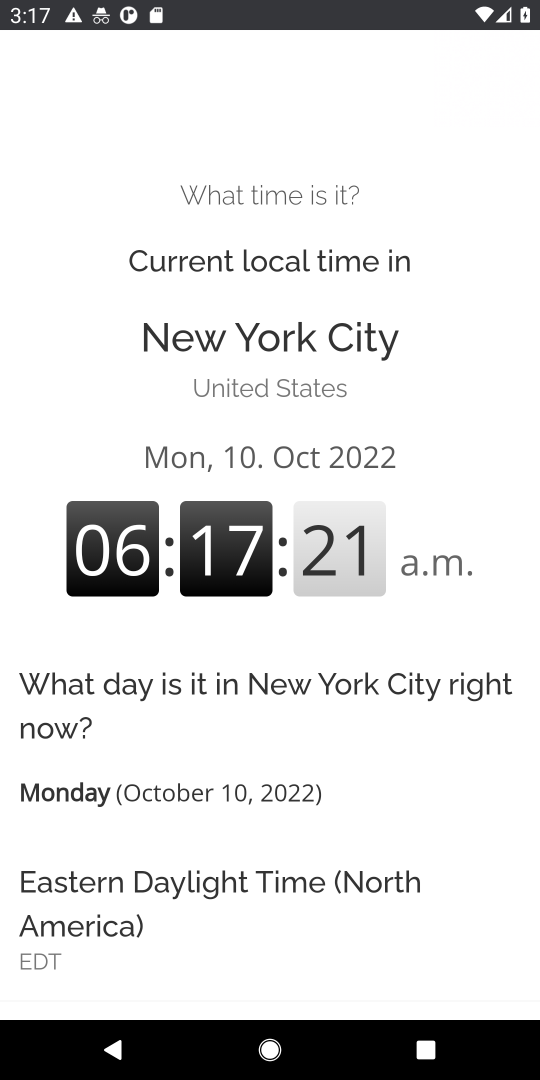
Step 51: drag from (385, 863) to (368, 223)
Your task to perform on an android device: What time is it in New York? Image 52: 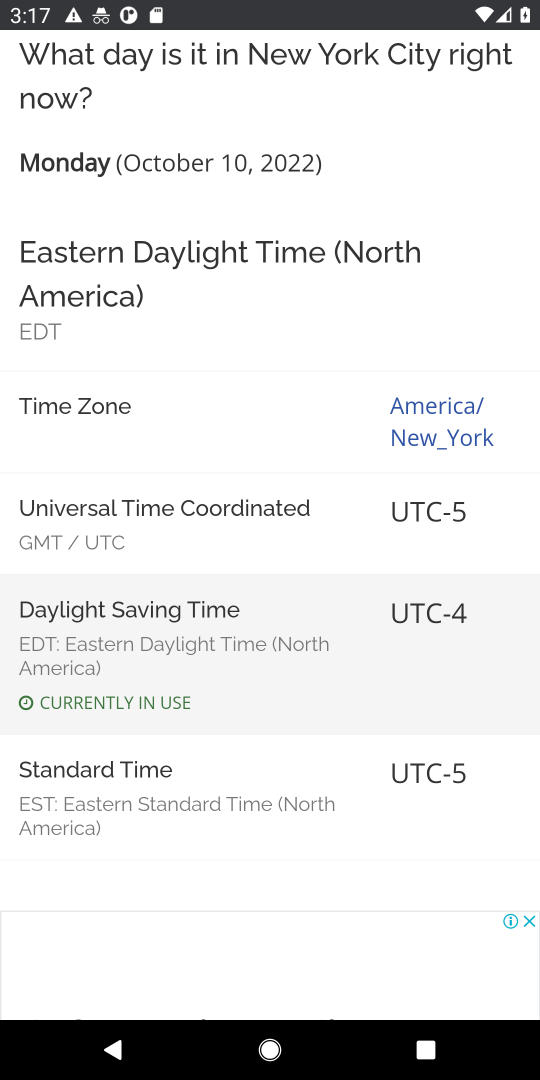
Step 52: drag from (365, 751) to (381, 164)
Your task to perform on an android device: What time is it in New York? Image 53: 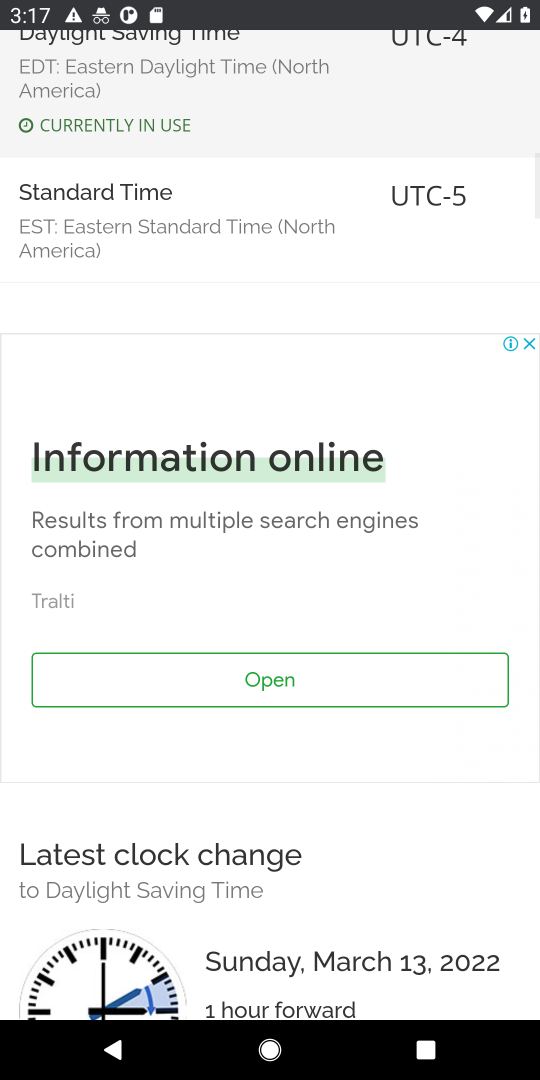
Step 53: drag from (308, 583) to (340, 175)
Your task to perform on an android device: What time is it in New York? Image 54: 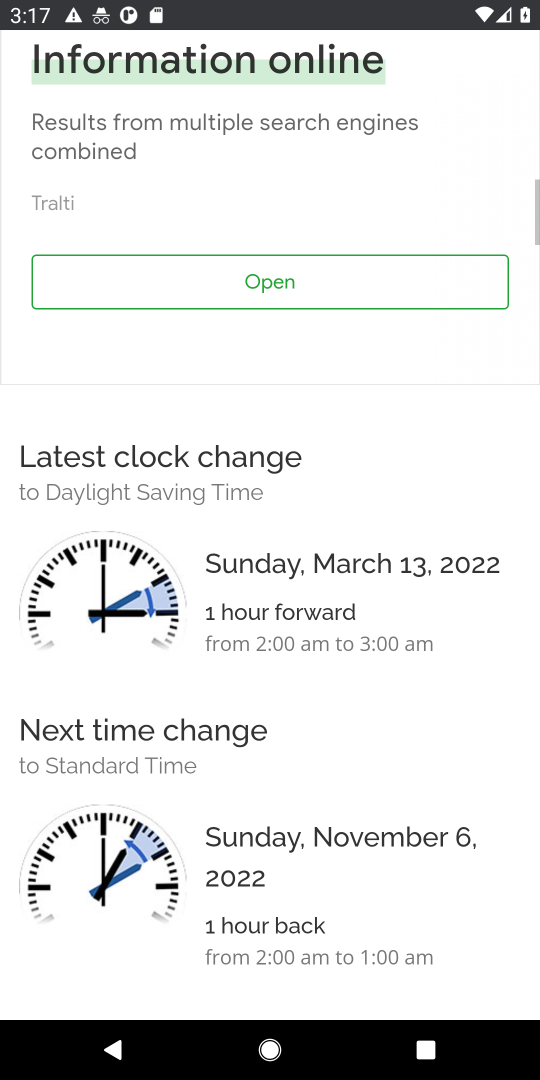
Step 54: drag from (292, 817) to (307, 194)
Your task to perform on an android device: What time is it in New York? Image 55: 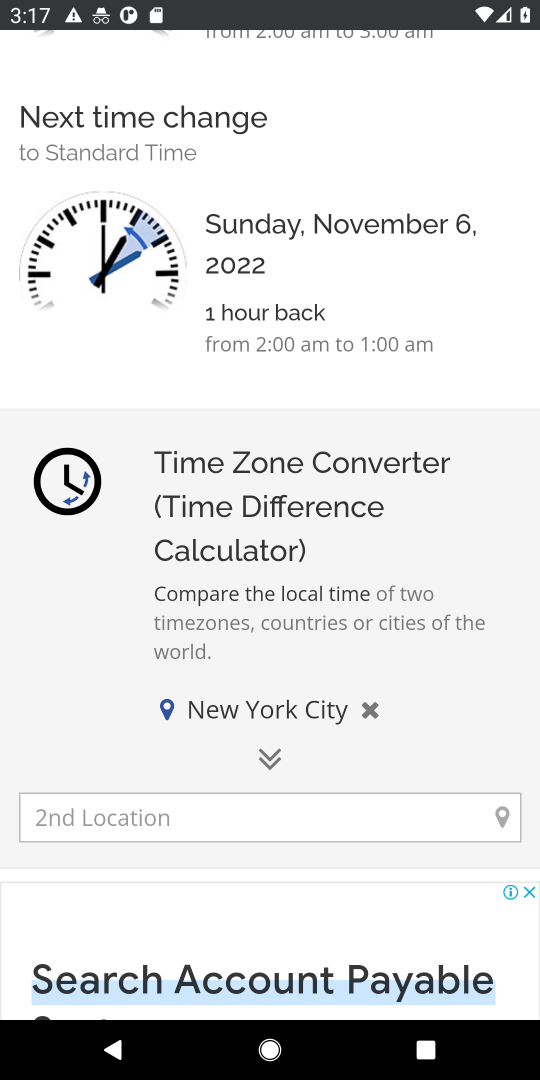
Step 55: drag from (255, 694) to (275, 145)
Your task to perform on an android device: What time is it in New York? Image 56: 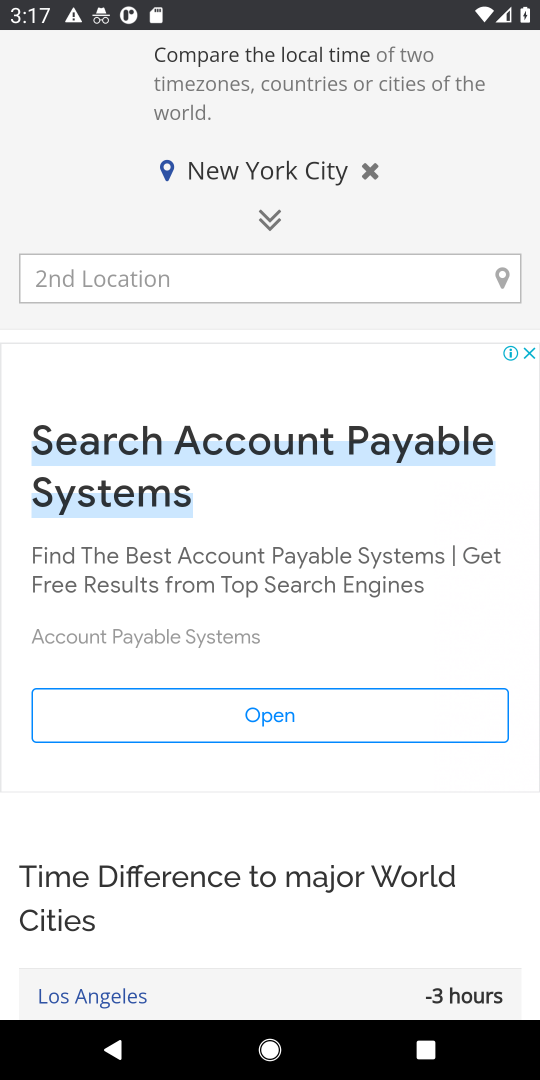
Step 56: drag from (331, 777) to (351, 123)
Your task to perform on an android device: What time is it in New York? Image 57: 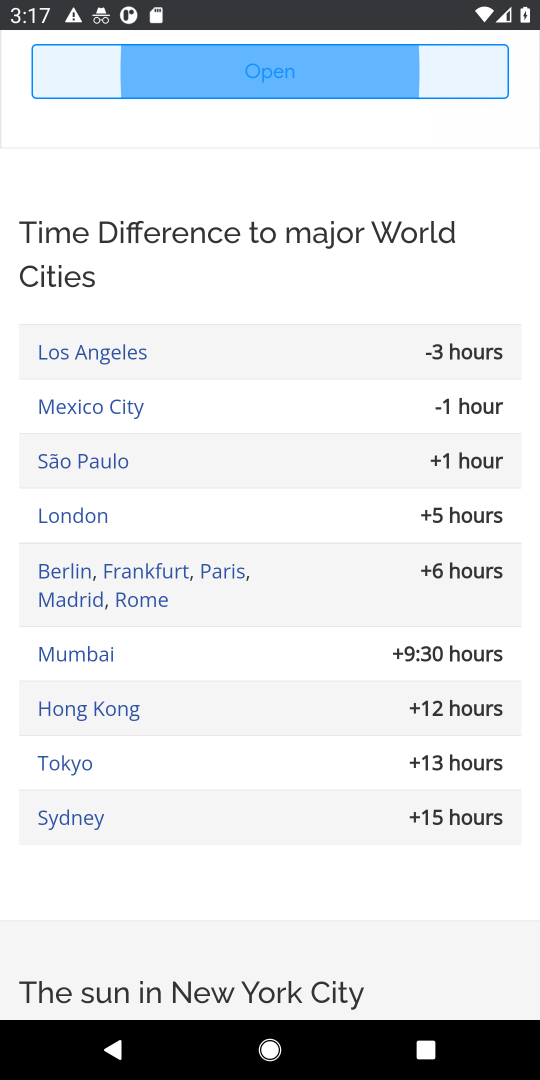
Step 57: drag from (318, 980) to (348, 211)
Your task to perform on an android device: What time is it in New York? Image 58: 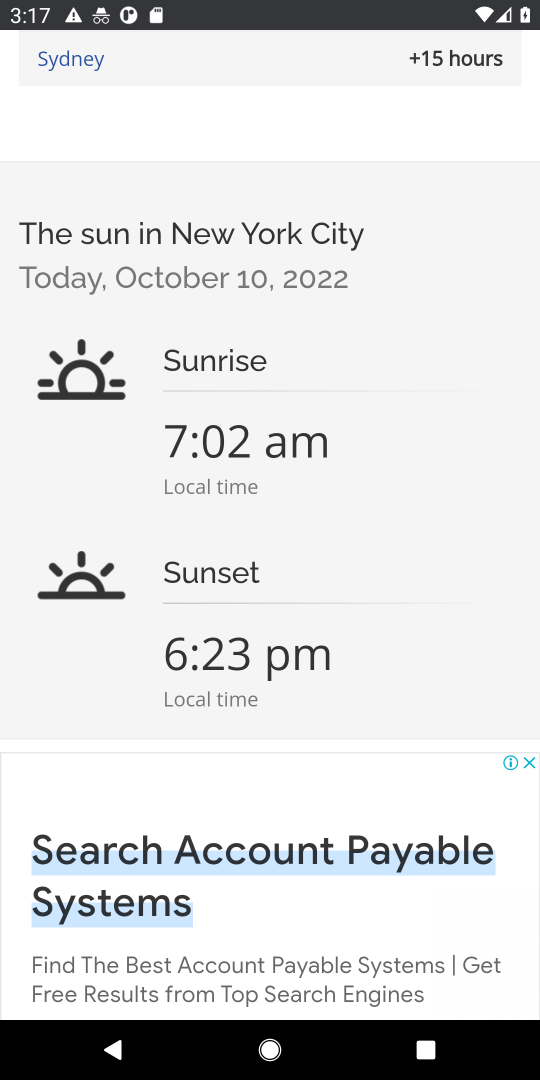
Step 58: drag from (313, 569) to (334, 202)
Your task to perform on an android device: What time is it in New York? Image 59: 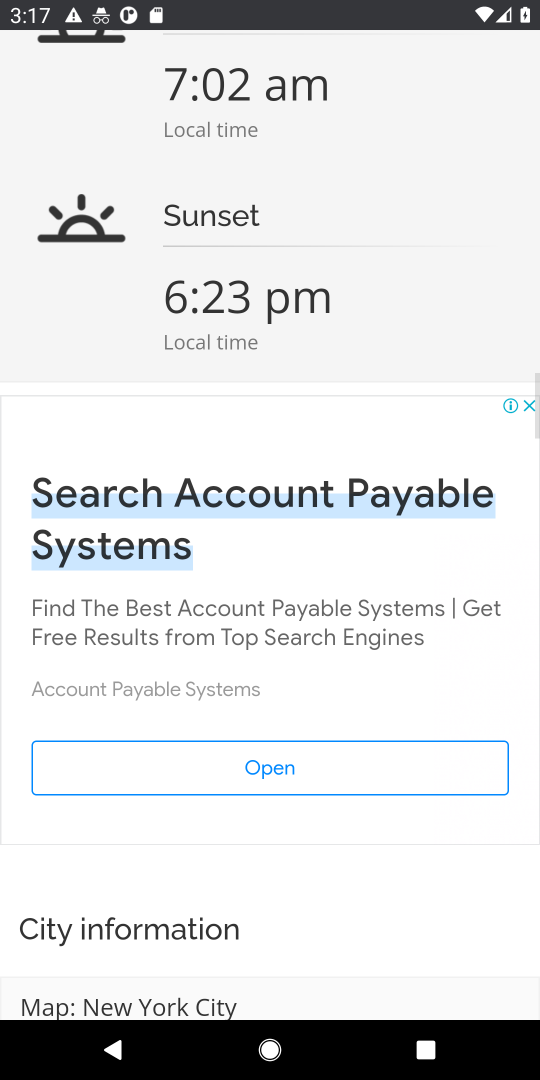
Step 59: drag from (331, 775) to (360, 70)
Your task to perform on an android device: What time is it in New York? Image 60: 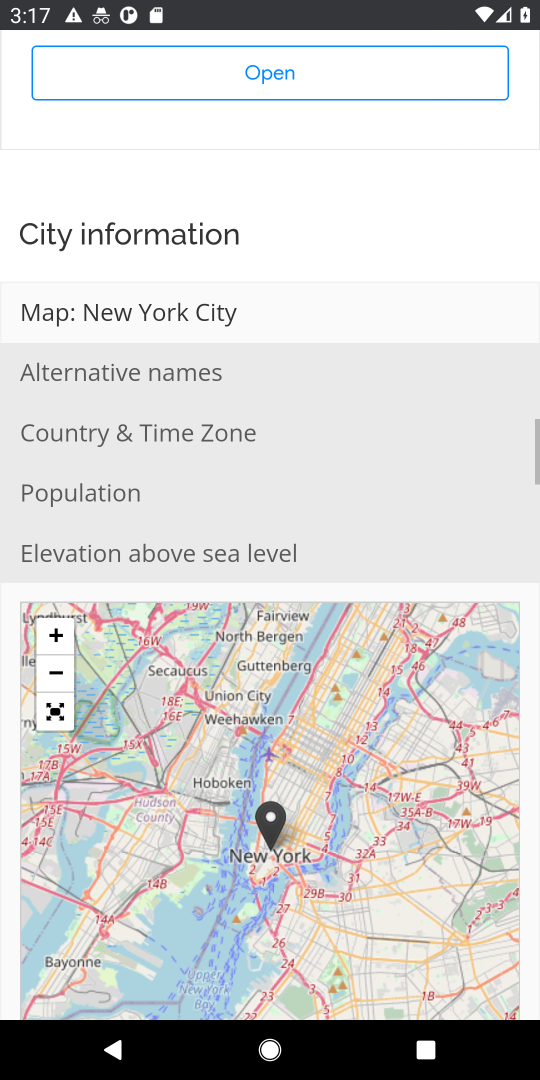
Step 60: drag from (328, 912) to (381, 97)
Your task to perform on an android device: What time is it in New York? Image 61: 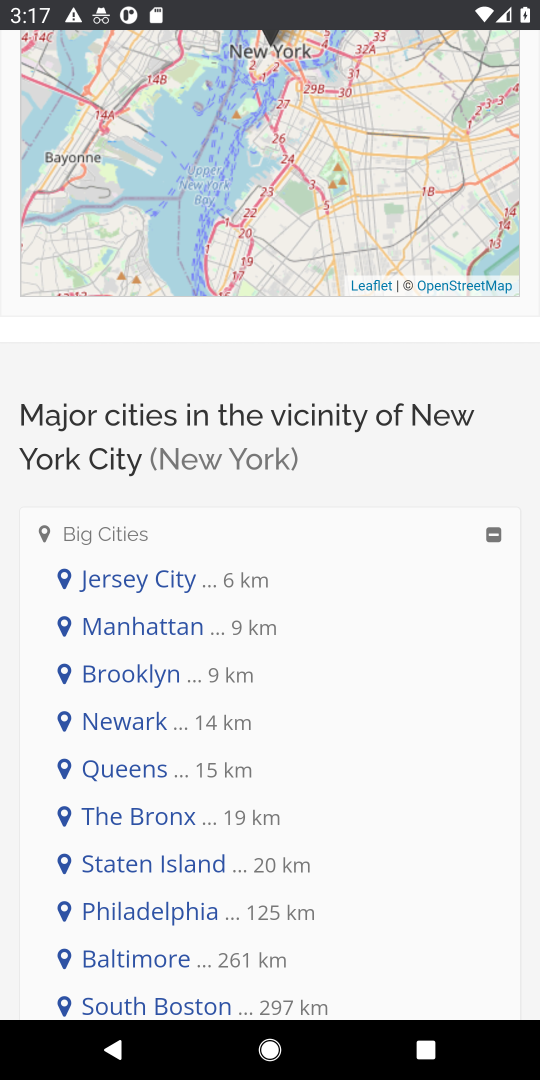
Step 61: drag from (381, 692) to (427, 167)
Your task to perform on an android device: What time is it in New York? Image 62: 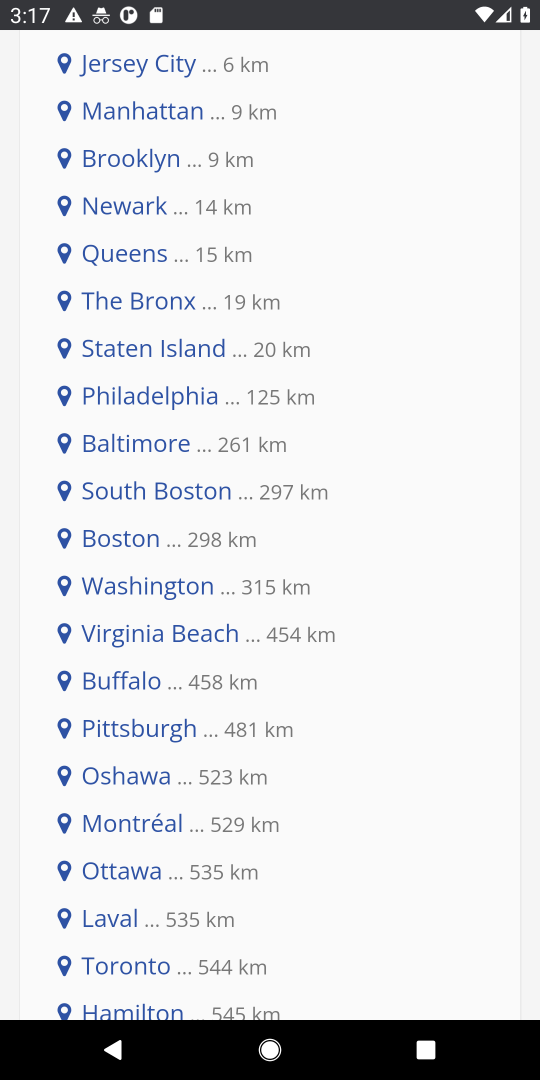
Step 62: drag from (364, 800) to (374, 125)
Your task to perform on an android device: What time is it in New York? Image 63: 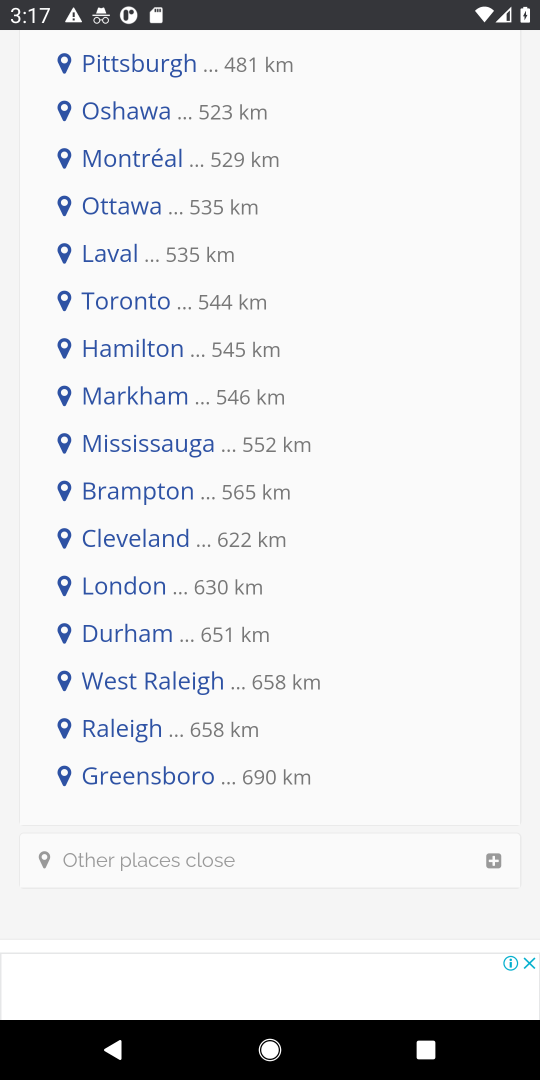
Step 63: drag from (323, 796) to (369, 114)
Your task to perform on an android device: What time is it in New York? Image 64: 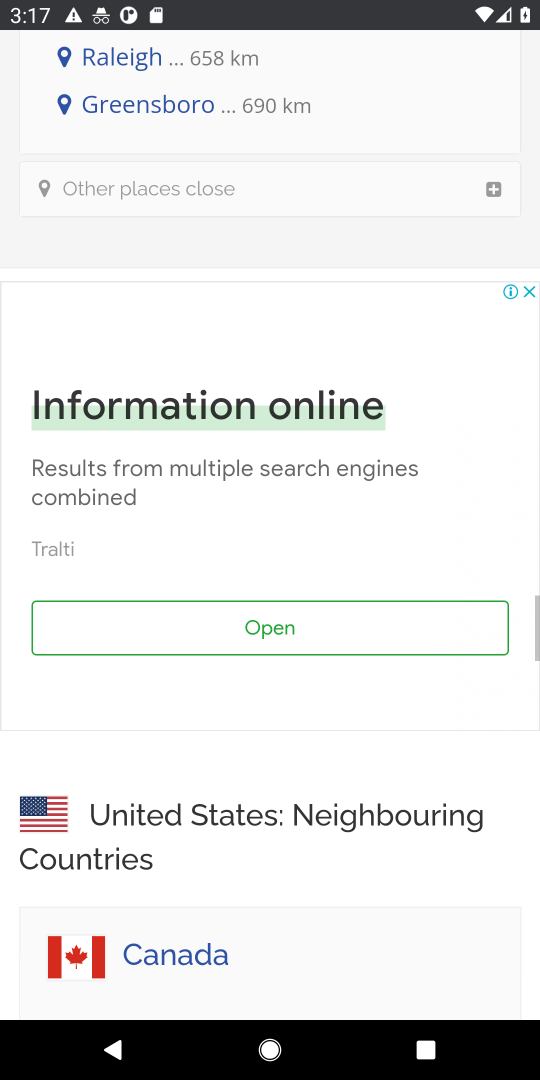
Step 64: press back button
Your task to perform on an android device: What time is it in New York? Image 65: 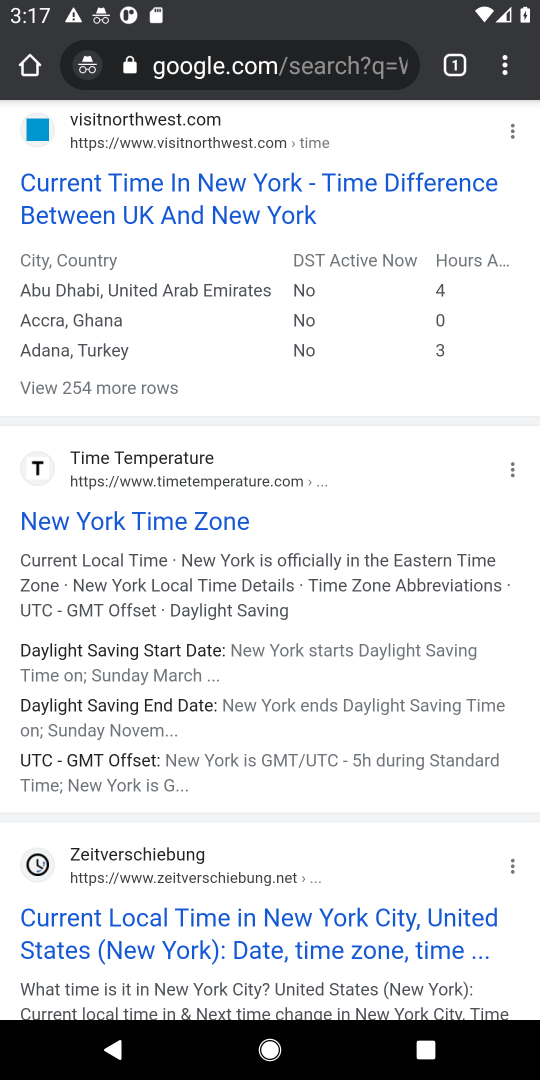
Step 65: drag from (362, 857) to (385, 131)
Your task to perform on an android device: What time is it in New York? Image 66: 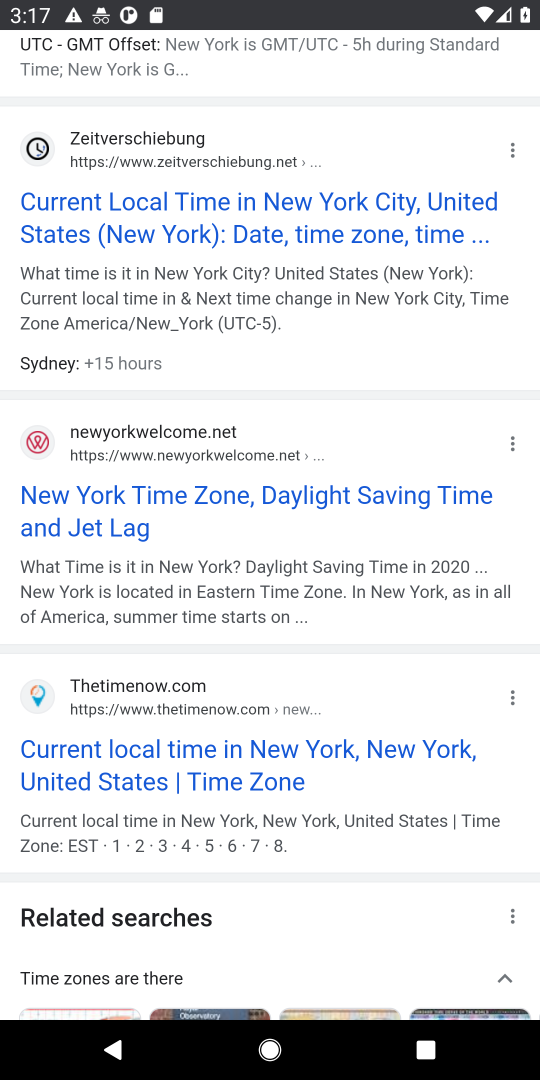
Step 66: click (241, 501)
Your task to perform on an android device: What time is it in New York? Image 67: 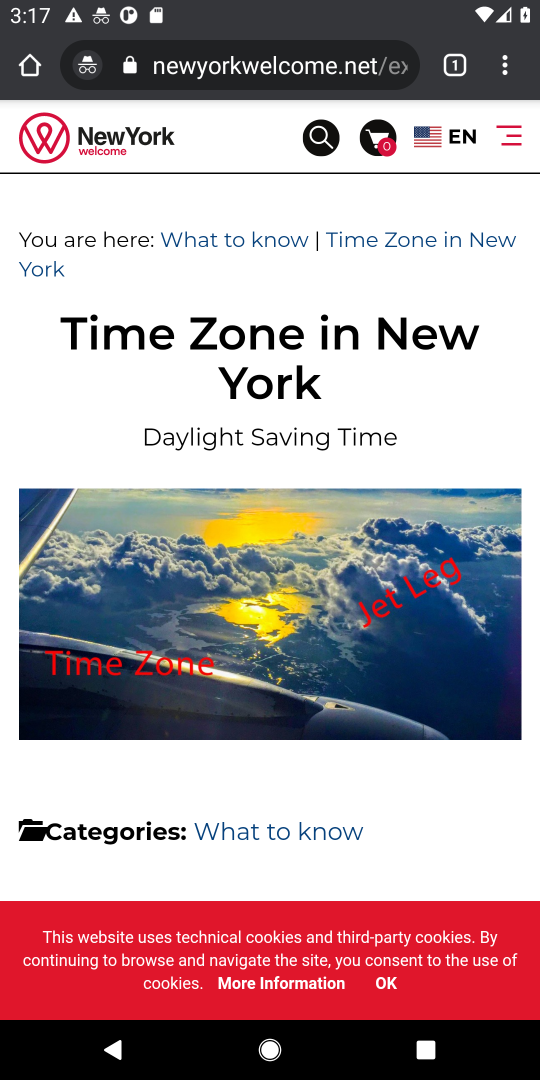
Step 67: drag from (251, 448) to (259, 226)
Your task to perform on an android device: What time is it in New York? Image 68: 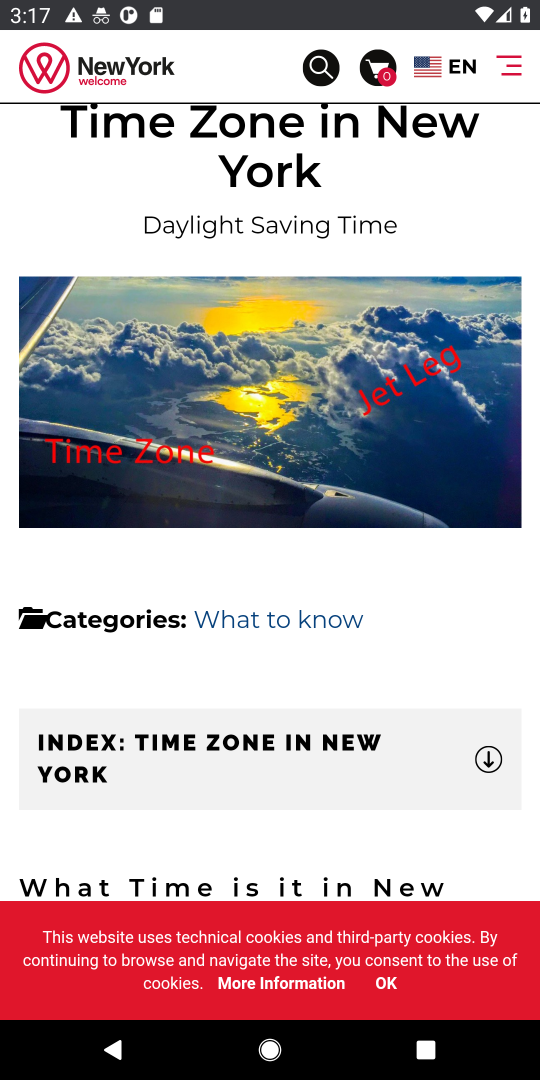
Step 68: drag from (266, 494) to (270, 157)
Your task to perform on an android device: What time is it in New York? Image 69: 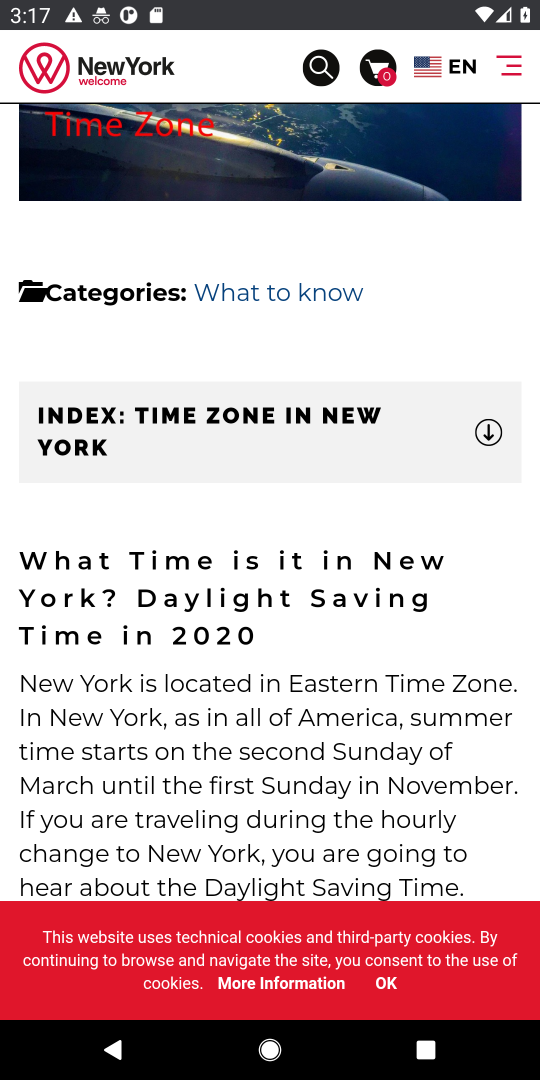
Step 69: drag from (357, 623) to (359, 104)
Your task to perform on an android device: What time is it in New York? Image 70: 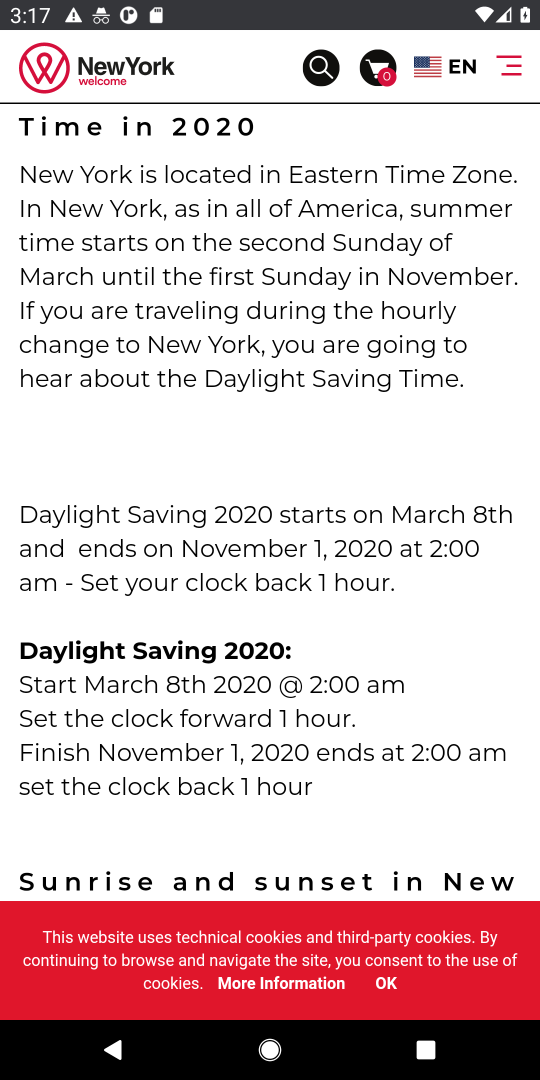
Step 70: drag from (362, 537) to (381, 161)
Your task to perform on an android device: What time is it in New York? Image 71: 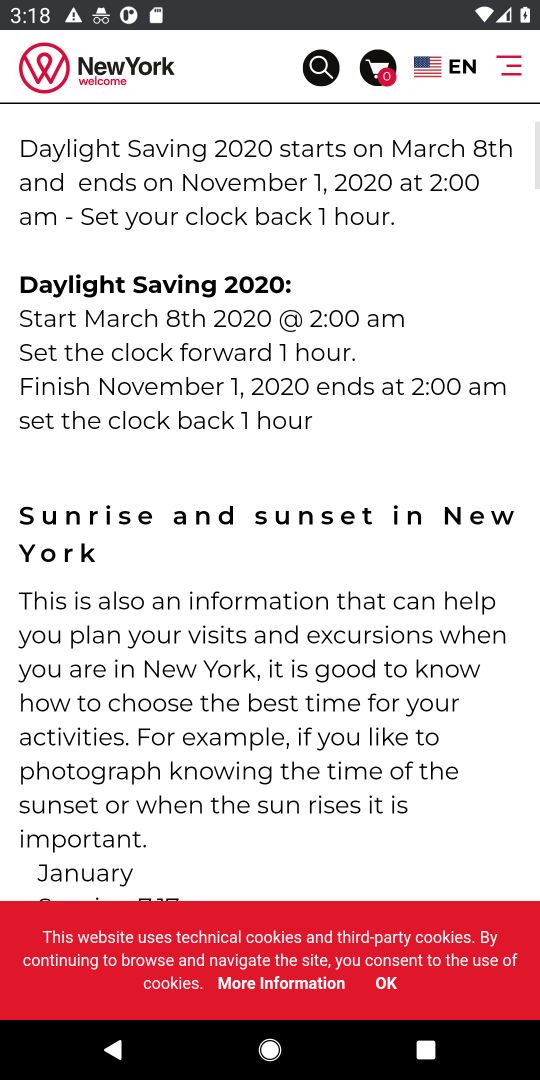
Step 71: drag from (317, 746) to (375, 163)
Your task to perform on an android device: What time is it in New York? Image 72: 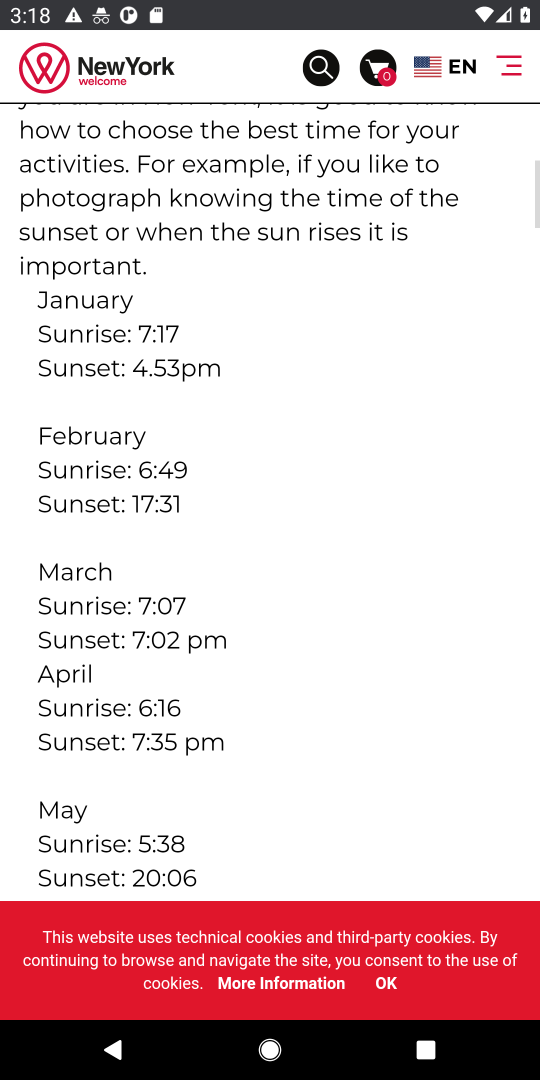
Step 72: drag from (309, 692) to (367, 194)
Your task to perform on an android device: What time is it in New York? Image 73: 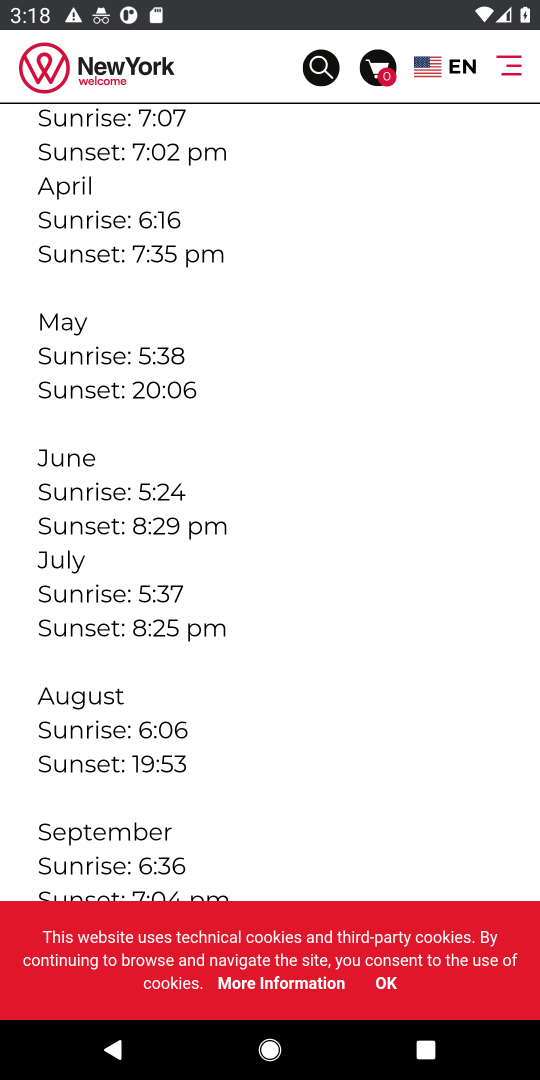
Step 73: drag from (406, 763) to (476, 169)
Your task to perform on an android device: What time is it in New York? Image 74: 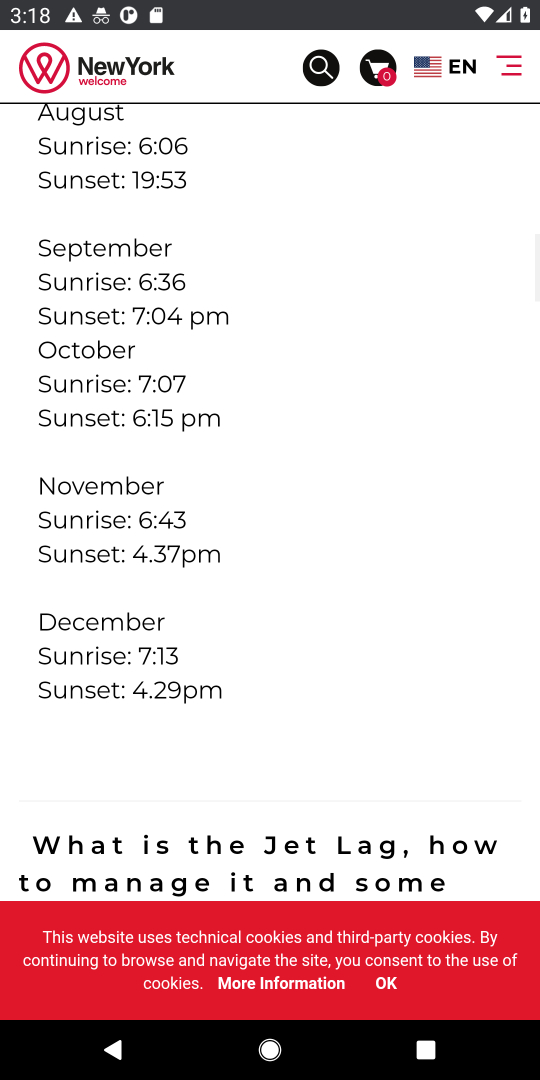
Step 74: click (396, 971)
Your task to perform on an android device: What time is it in New York? Image 75: 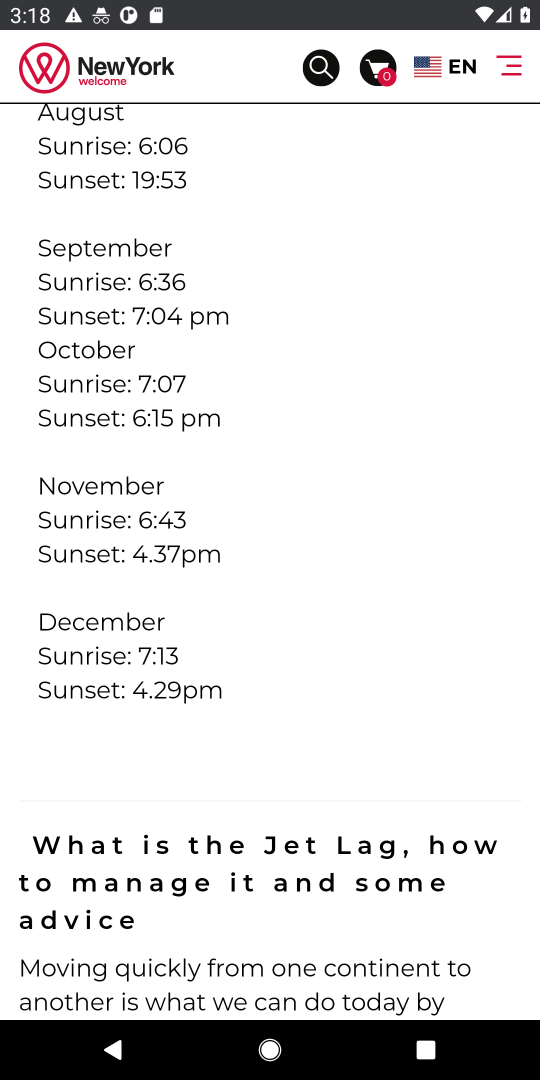
Step 75: drag from (396, 943) to (413, 244)
Your task to perform on an android device: What time is it in New York? Image 76: 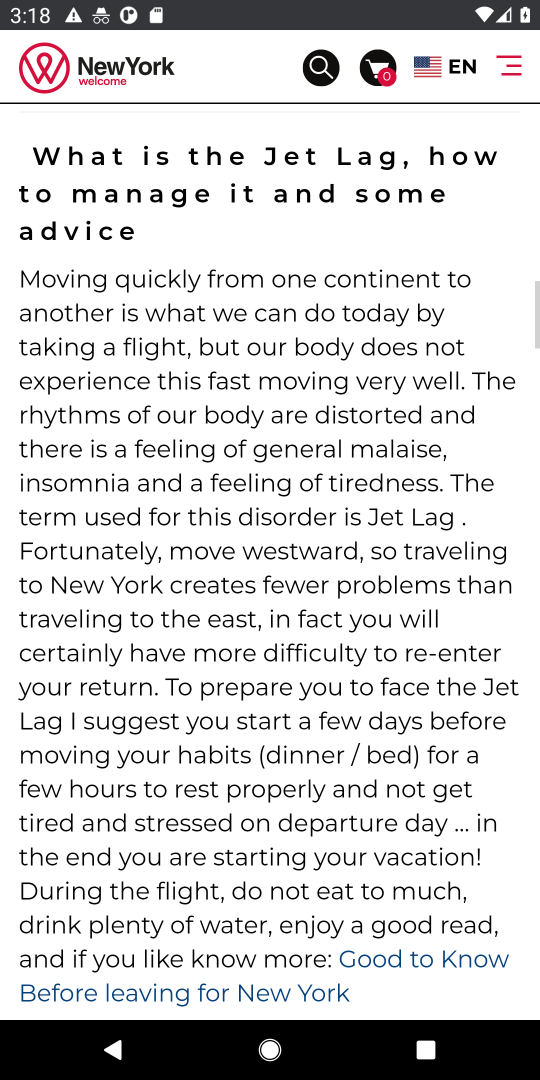
Step 76: drag from (396, 868) to (388, 106)
Your task to perform on an android device: What time is it in New York? Image 77: 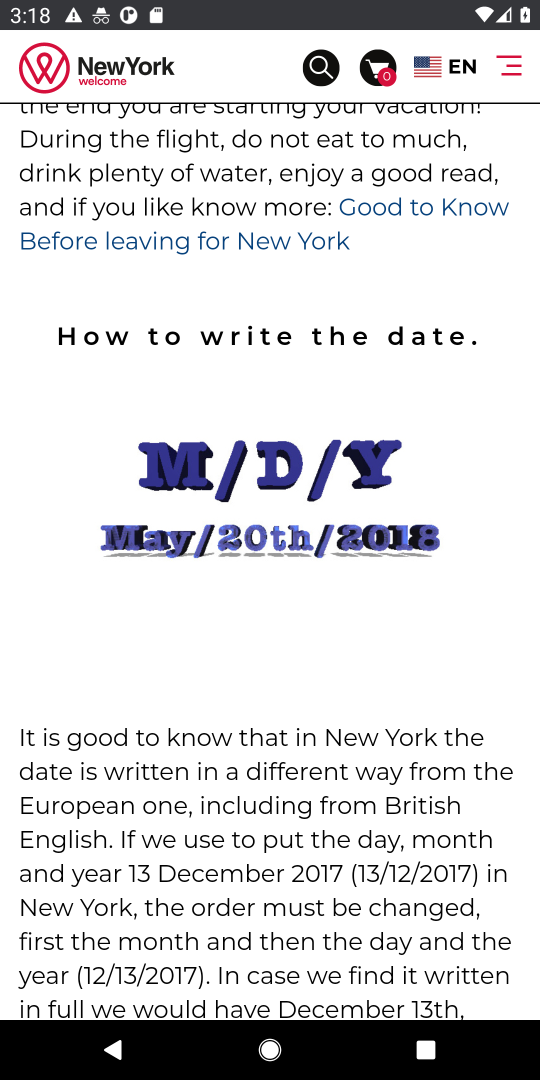
Step 77: drag from (354, 937) to (358, 118)
Your task to perform on an android device: What time is it in New York? Image 78: 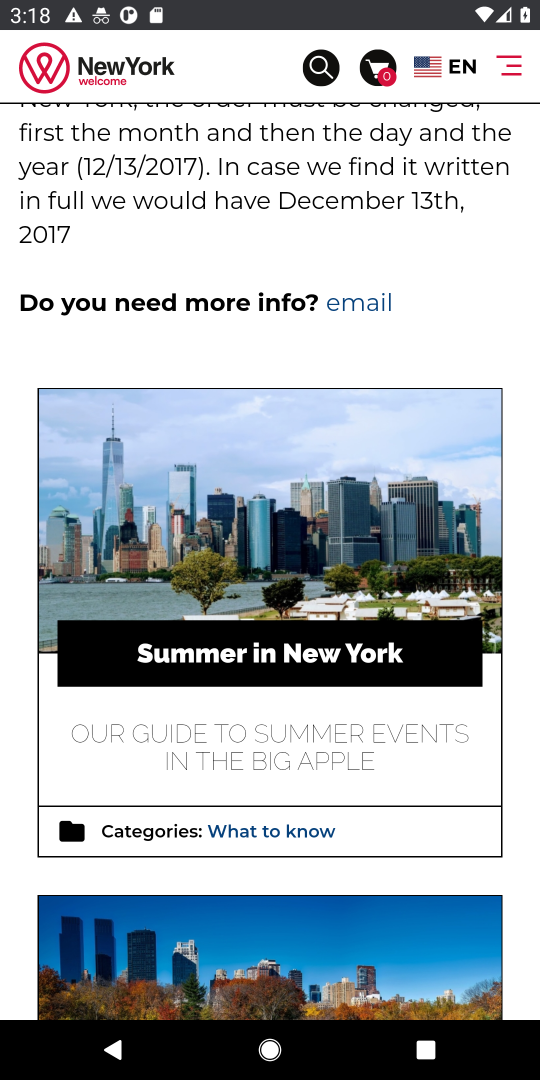
Step 78: drag from (234, 879) to (318, 93)
Your task to perform on an android device: What time is it in New York? Image 79: 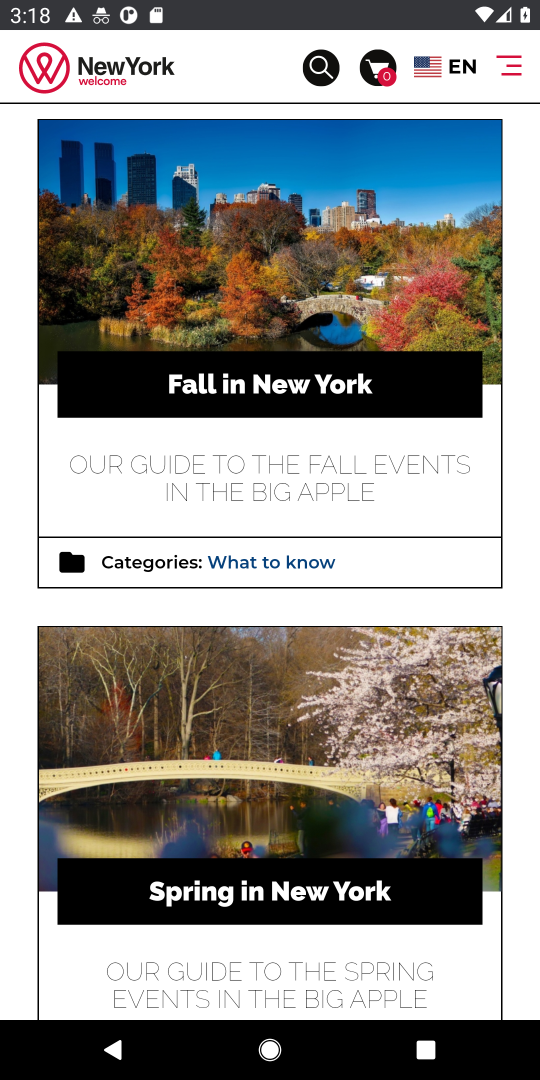
Step 79: drag from (257, 896) to (331, 121)
Your task to perform on an android device: What time is it in New York? Image 80: 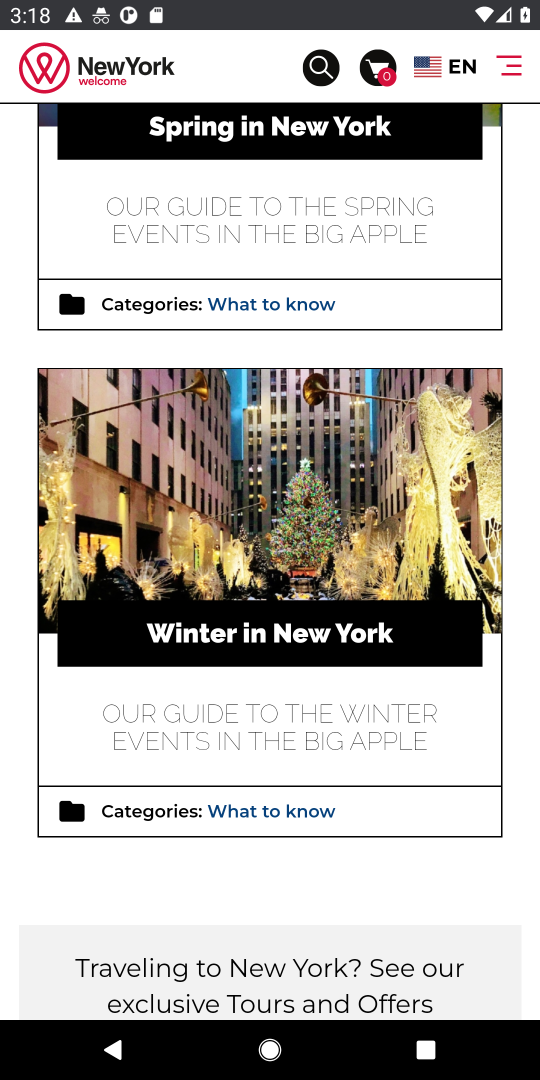
Step 80: drag from (263, 764) to (351, 35)
Your task to perform on an android device: What time is it in New York? Image 81: 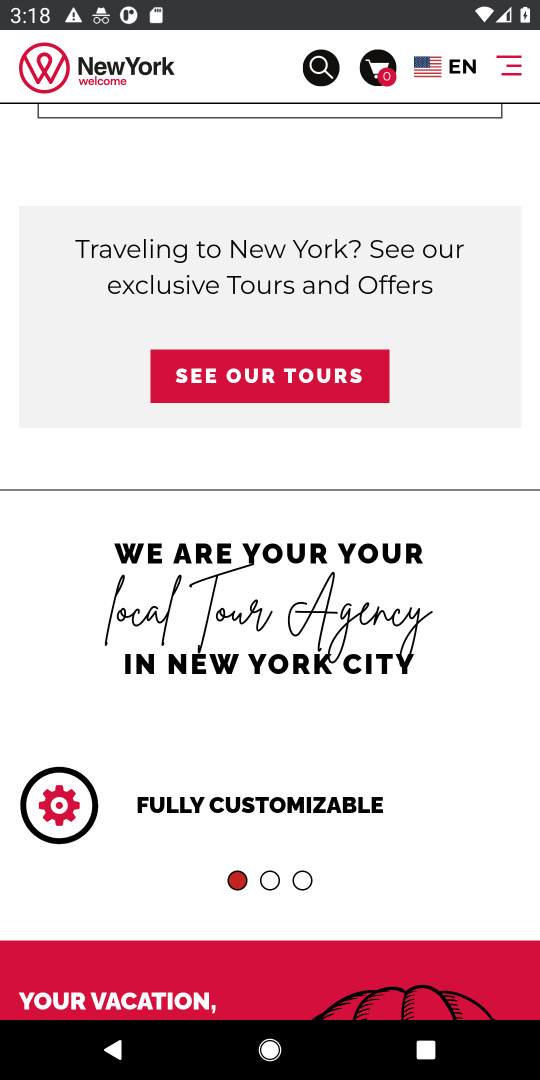
Step 81: drag from (246, 846) to (256, 170)
Your task to perform on an android device: What time is it in New York? Image 82: 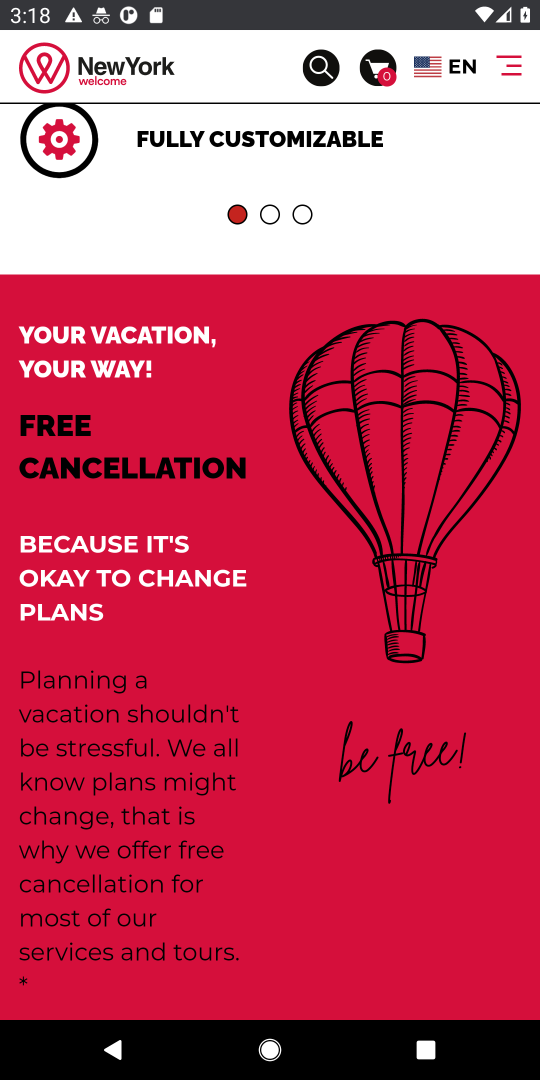
Step 82: press back button
Your task to perform on an android device: What time is it in New York? Image 83: 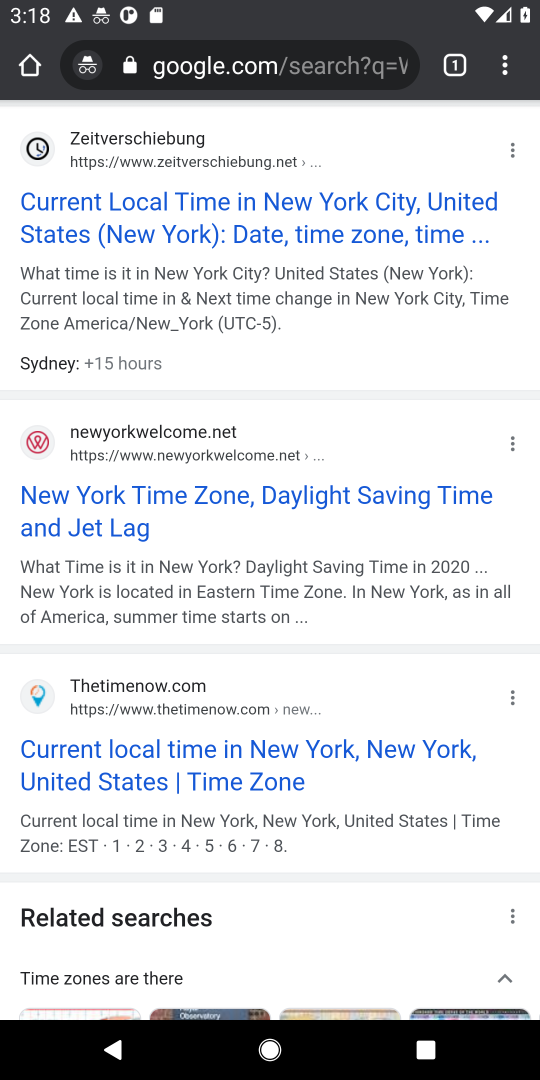
Step 83: click (305, 497)
Your task to perform on an android device: What time is it in New York? Image 84: 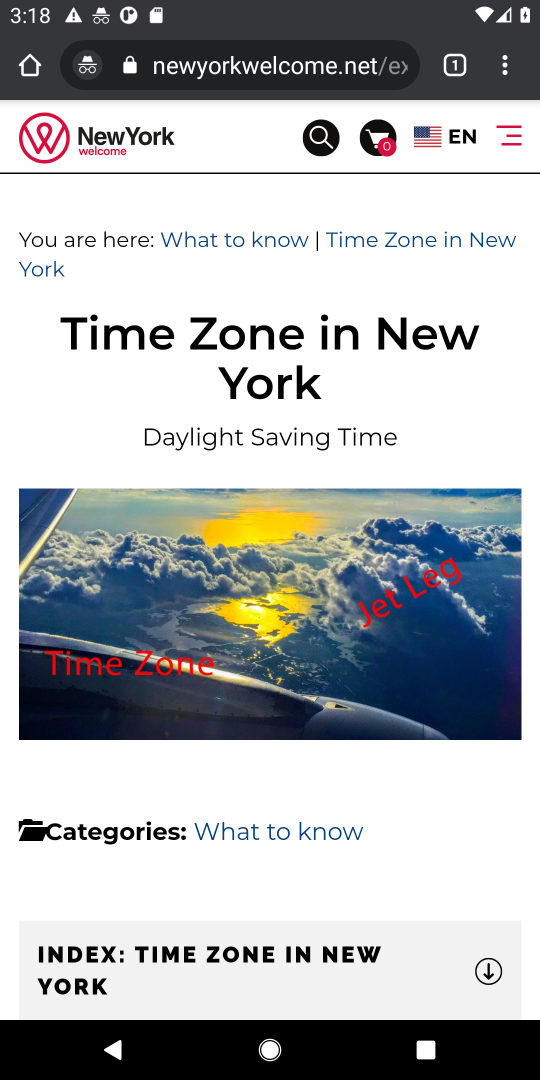
Step 84: drag from (347, 716) to (335, 428)
Your task to perform on an android device: What time is it in New York? Image 85: 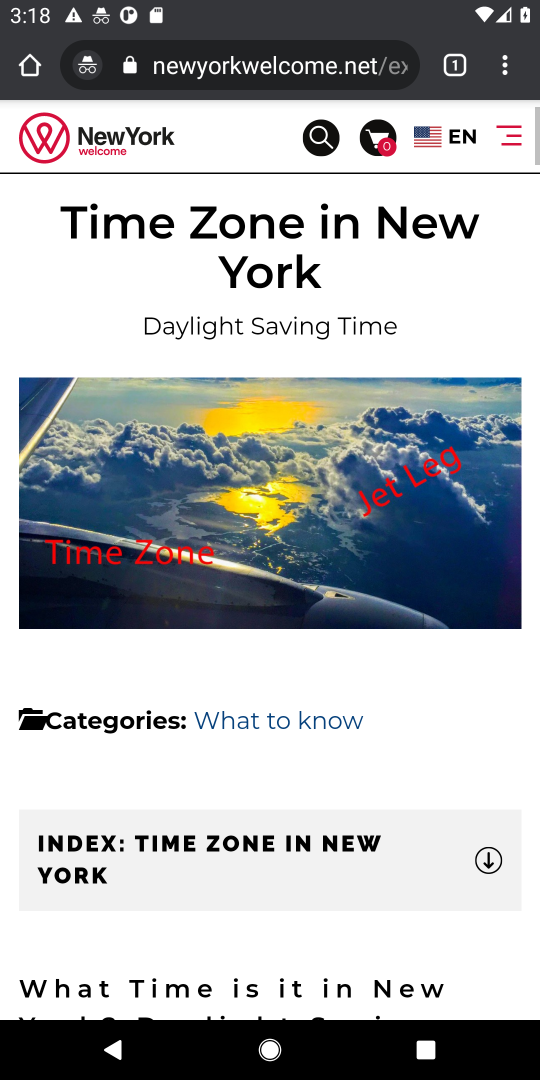
Step 85: drag from (375, 409) to (418, 81)
Your task to perform on an android device: What time is it in New York? Image 86: 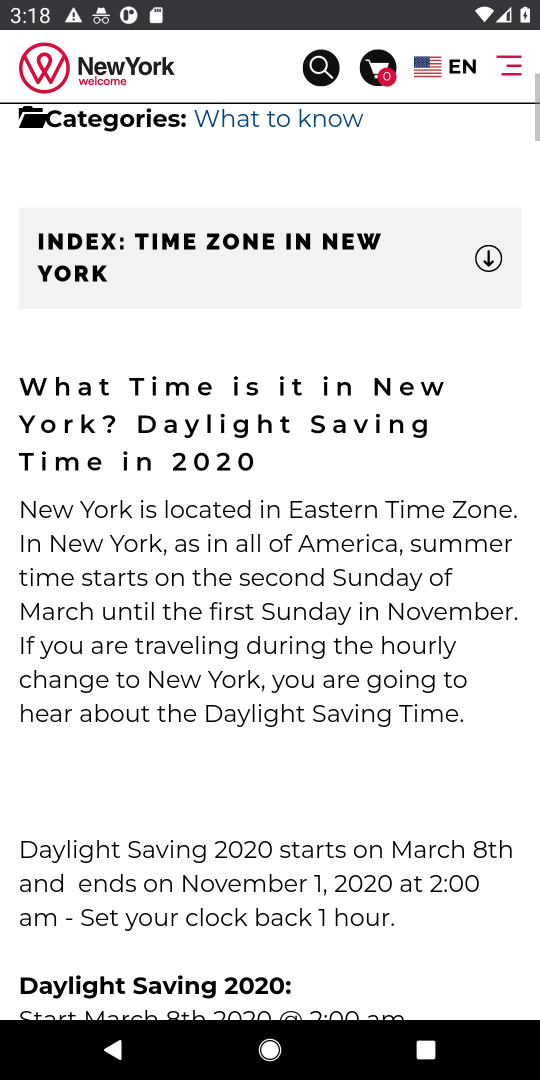
Step 86: drag from (325, 876) to (409, 131)
Your task to perform on an android device: What time is it in New York? Image 87: 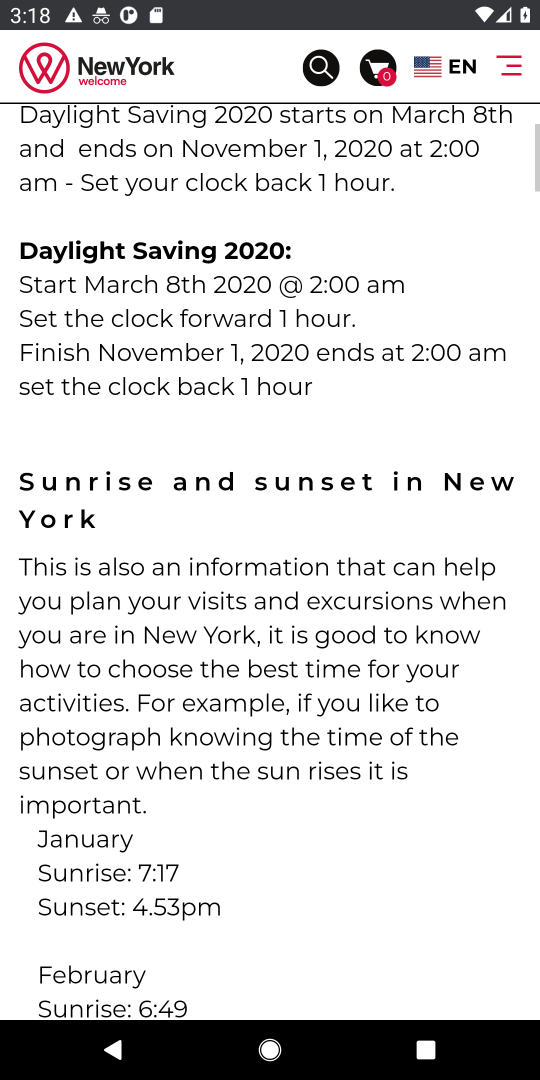
Step 87: drag from (374, 694) to (368, 151)
Your task to perform on an android device: What time is it in New York? Image 88: 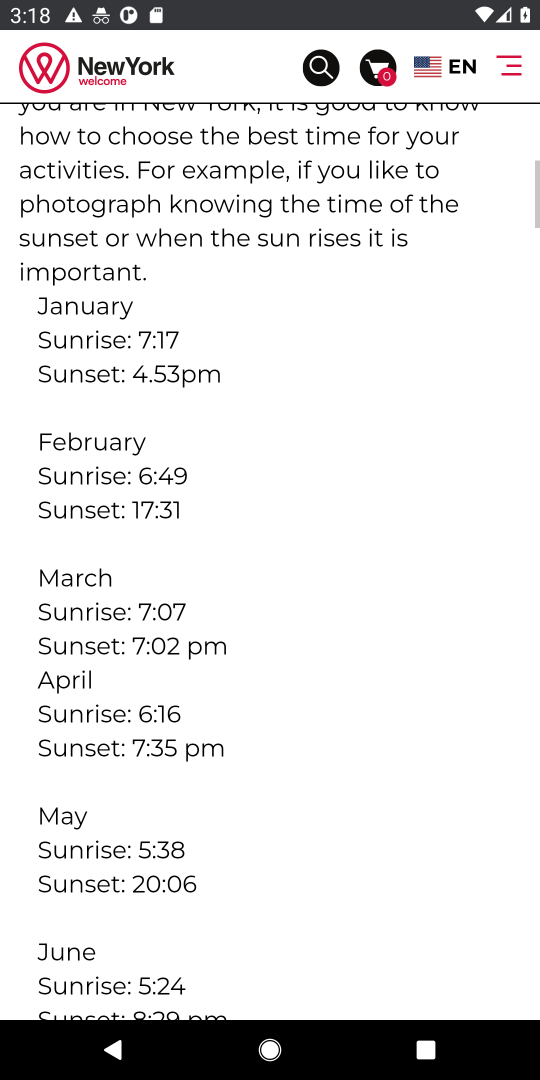
Step 88: drag from (337, 433) to (400, 114)
Your task to perform on an android device: What time is it in New York? Image 89: 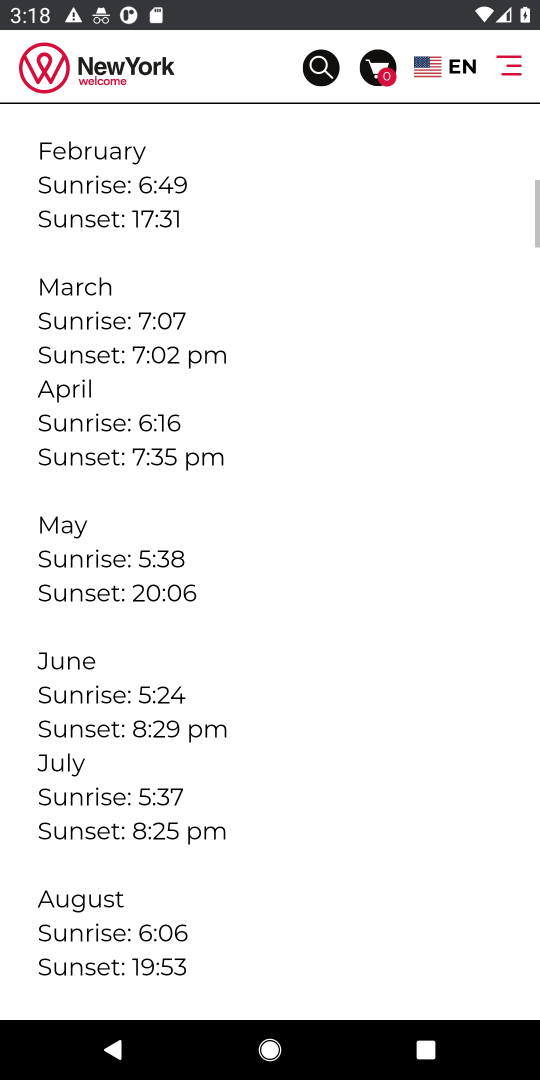
Step 89: drag from (309, 623) to (320, 172)
Your task to perform on an android device: What time is it in New York? Image 90: 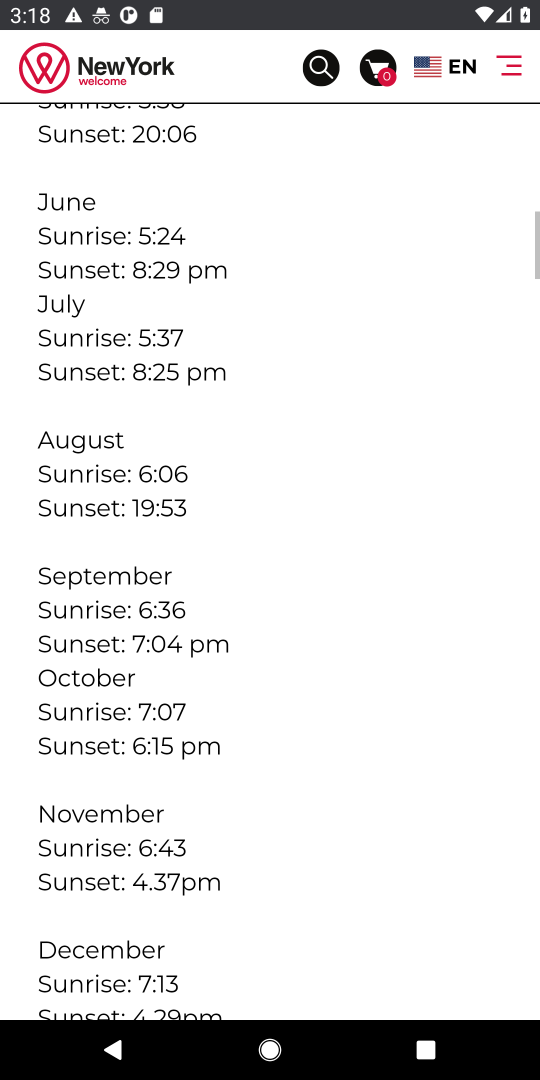
Step 90: drag from (248, 562) to (293, 91)
Your task to perform on an android device: What time is it in New York? Image 91: 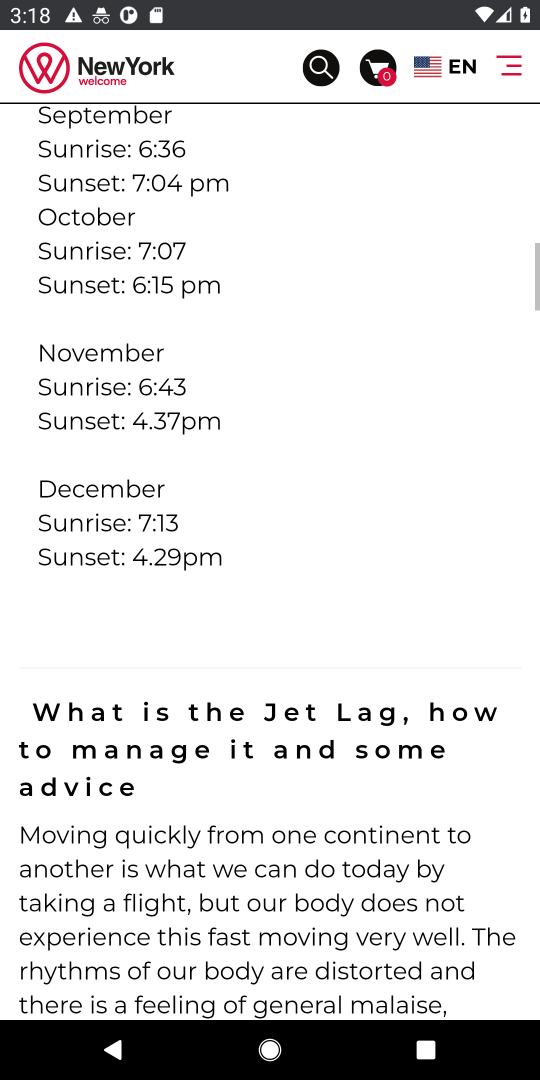
Step 91: drag from (256, 509) to (281, 374)
Your task to perform on an android device: What time is it in New York? Image 92: 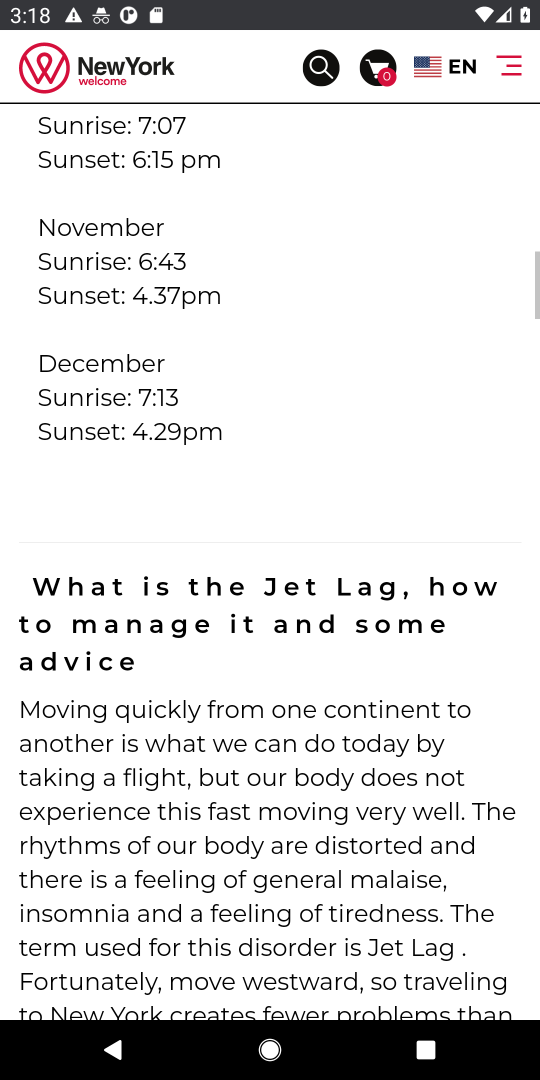
Step 92: click (256, 365)
Your task to perform on an android device: What time is it in New York? Image 93: 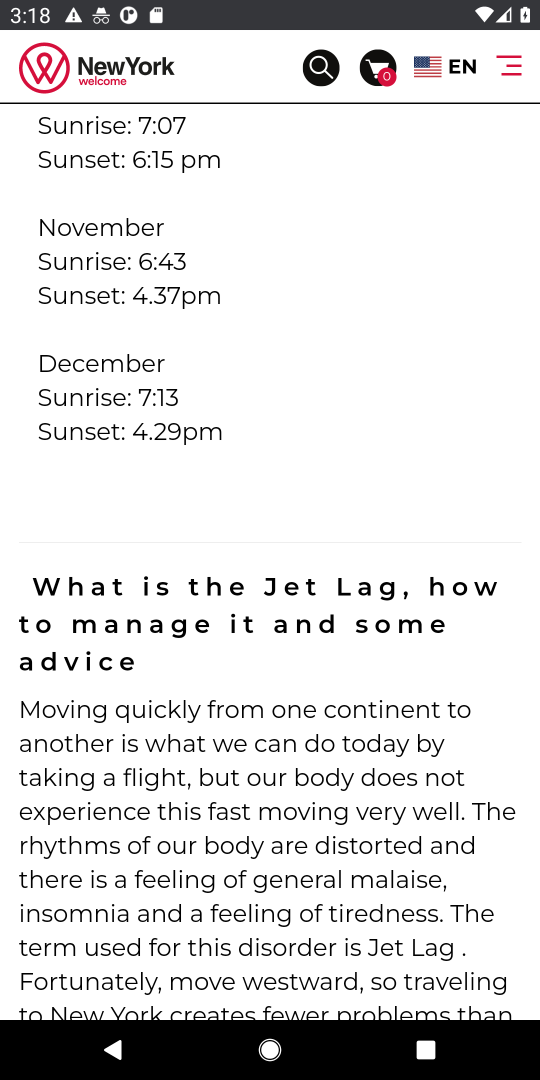
Step 93: task complete